Your task to perform on an android device: open app "Expedia: Hotels, Flights & Car" (install if not already installed) and enter user name: "crusader@outlook.com" and password: "Toryize" Image 0: 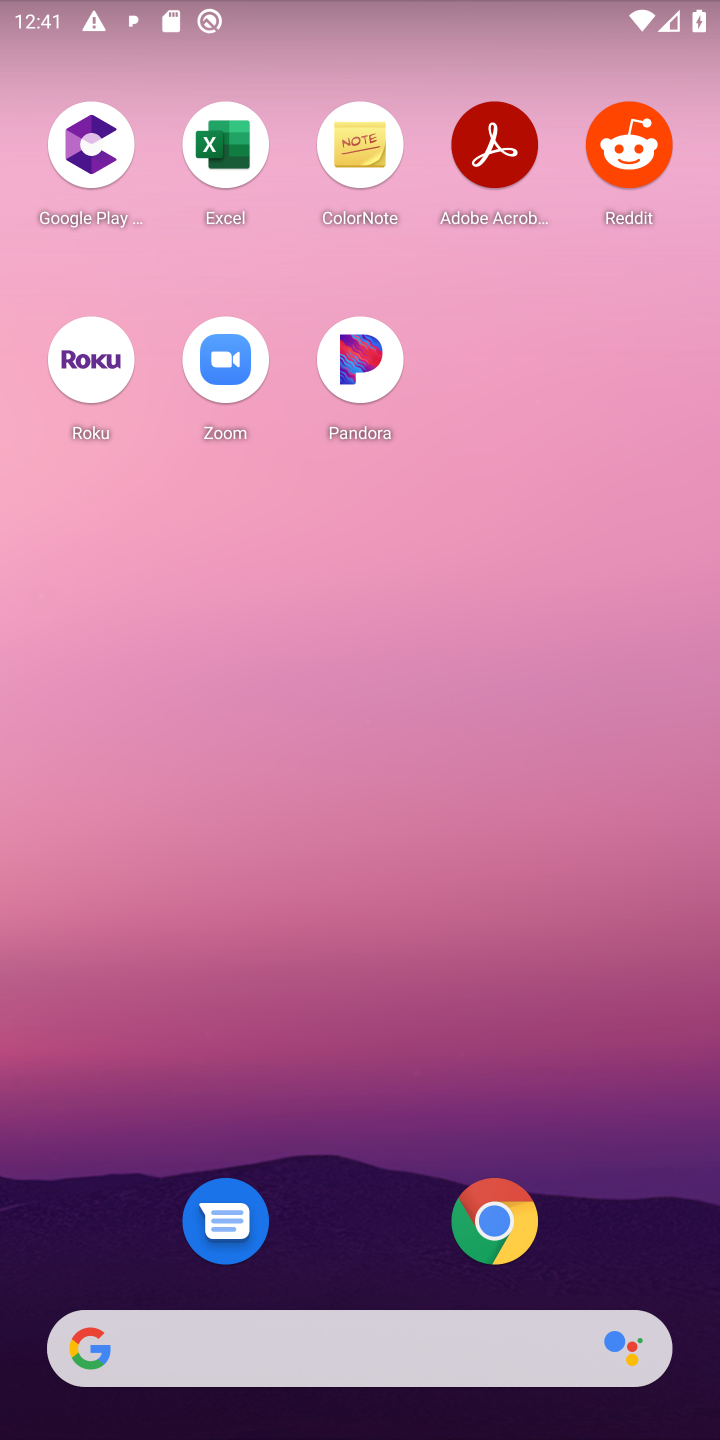
Step 0: drag from (361, 731) to (431, 132)
Your task to perform on an android device: open app "Expedia: Hotels, Flights & Car" (install if not already installed) and enter user name: "crusader@outlook.com" and password: "Toryize" Image 1: 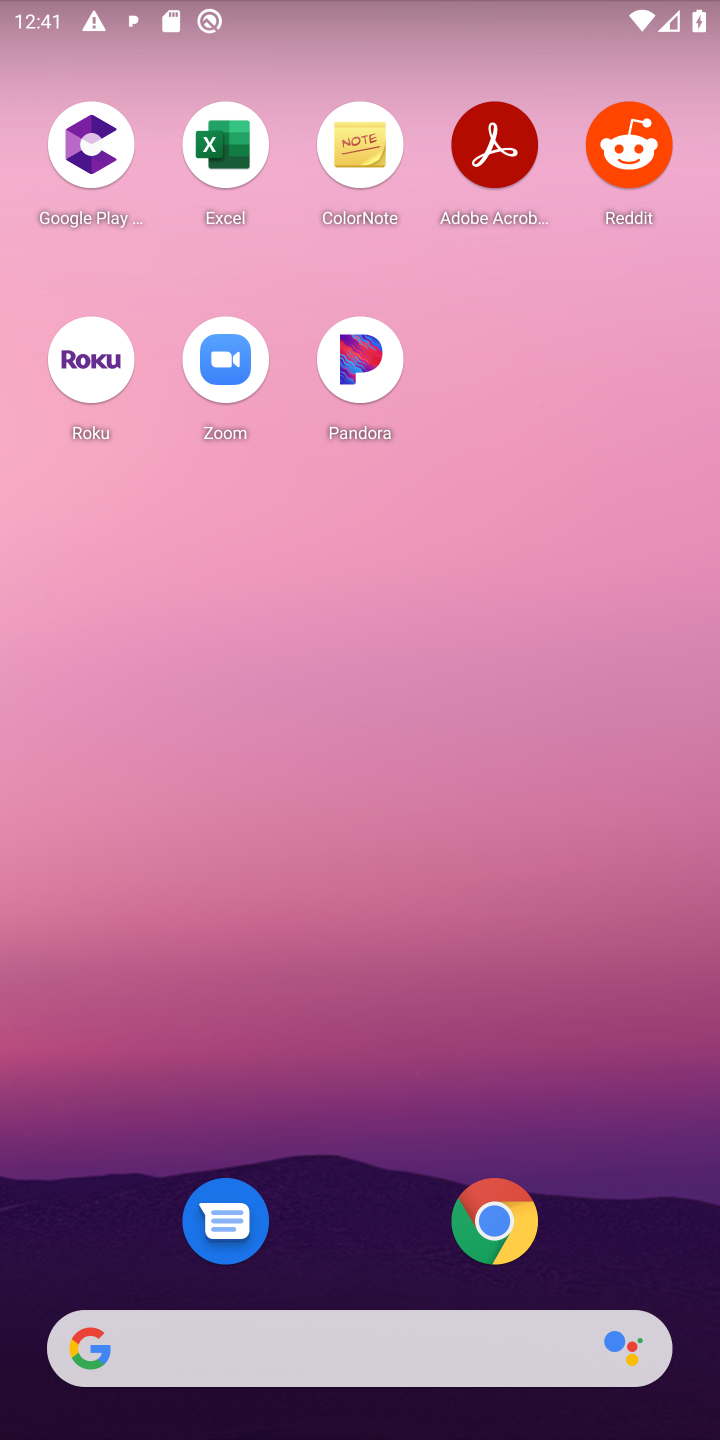
Step 1: drag from (304, 1124) to (405, 101)
Your task to perform on an android device: open app "Expedia: Hotels, Flights & Car" (install if not already installed) and enter user name: "crusader@outlook.com" and password: "Toryize" Image 2: 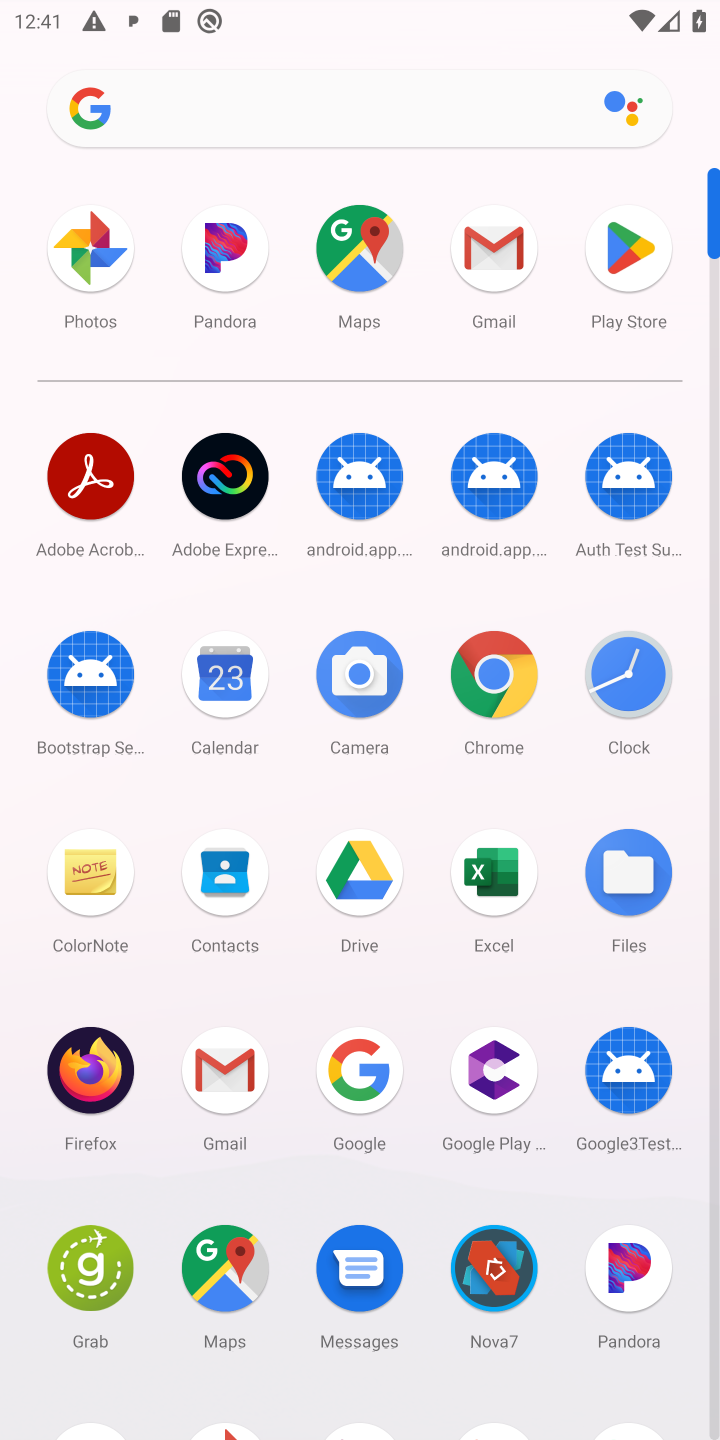
Step 2: click (614, 258)
Your task to perform on an android device: open app "Expedia: Hotels, Flights & Car" (install if not already installed) and enter user name: "crusader@outlook.com" and password: "Toryize" Image 3: 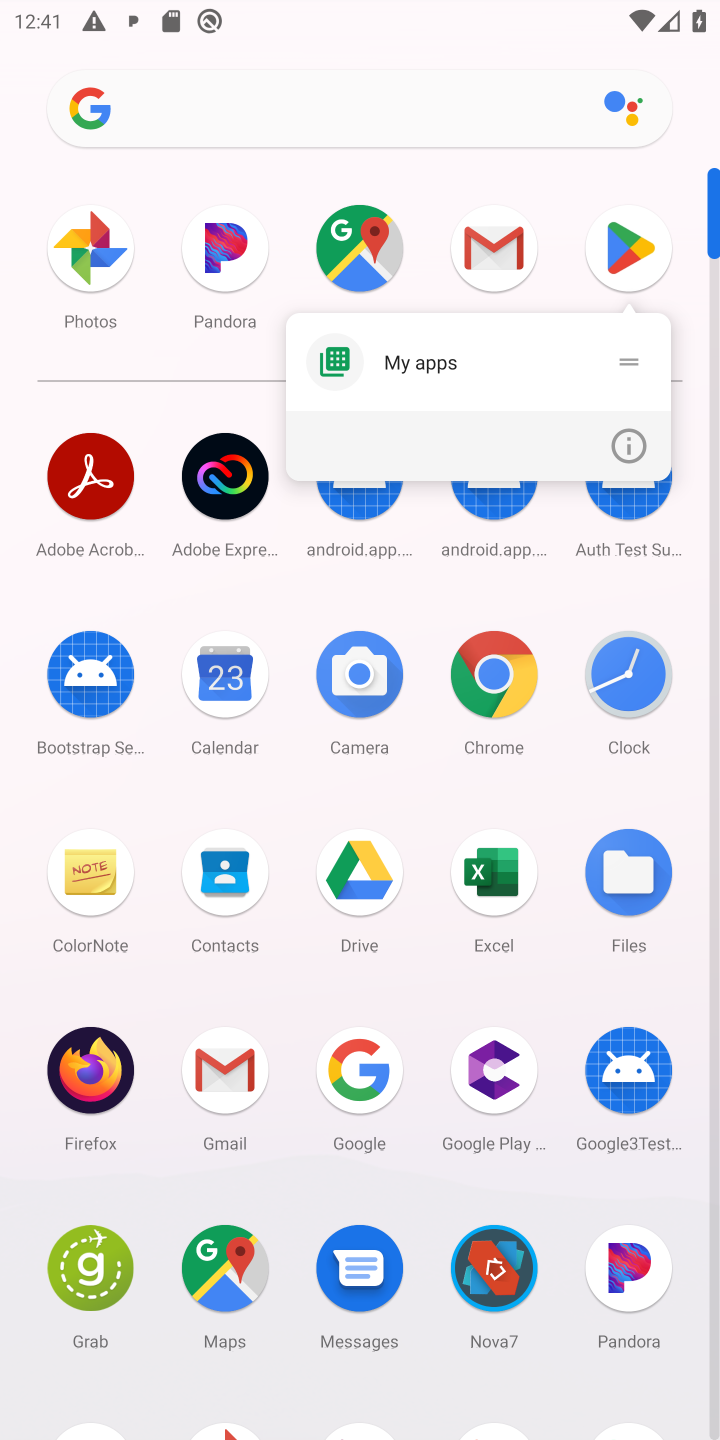
Step 3: click (644, 242)
Your task to perform on an android device: open app "Expedia: Hotels, Flights & Car" (install if not already installed) and enter user name: "crusader@outlook.com" and password: "Toryize" Image 4: 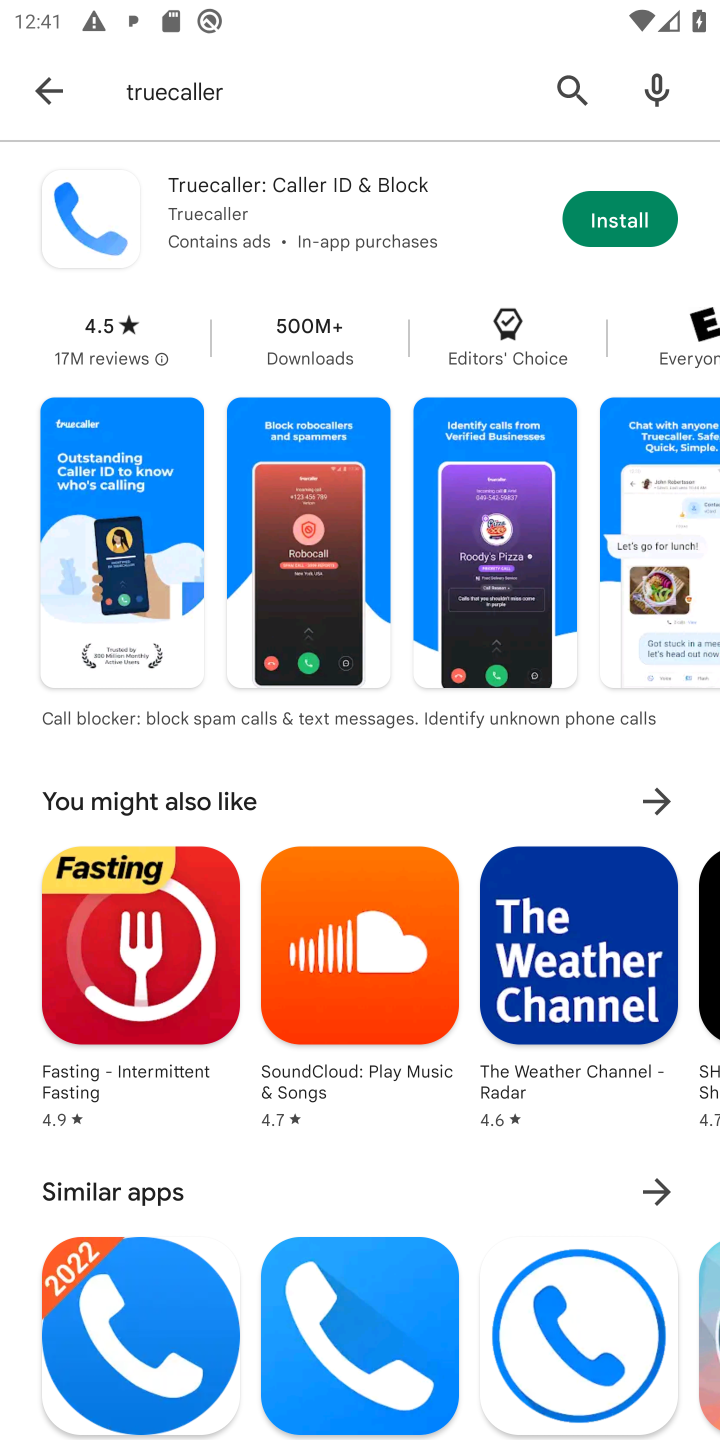
Step 4: click (578, 85)
Your task to perform on an android device: open app "Expedia: Hotels, Flights & Car" (install if not already installed) and enter user name: "crusader@outlook.com" and password: "Toryize" Image 5: 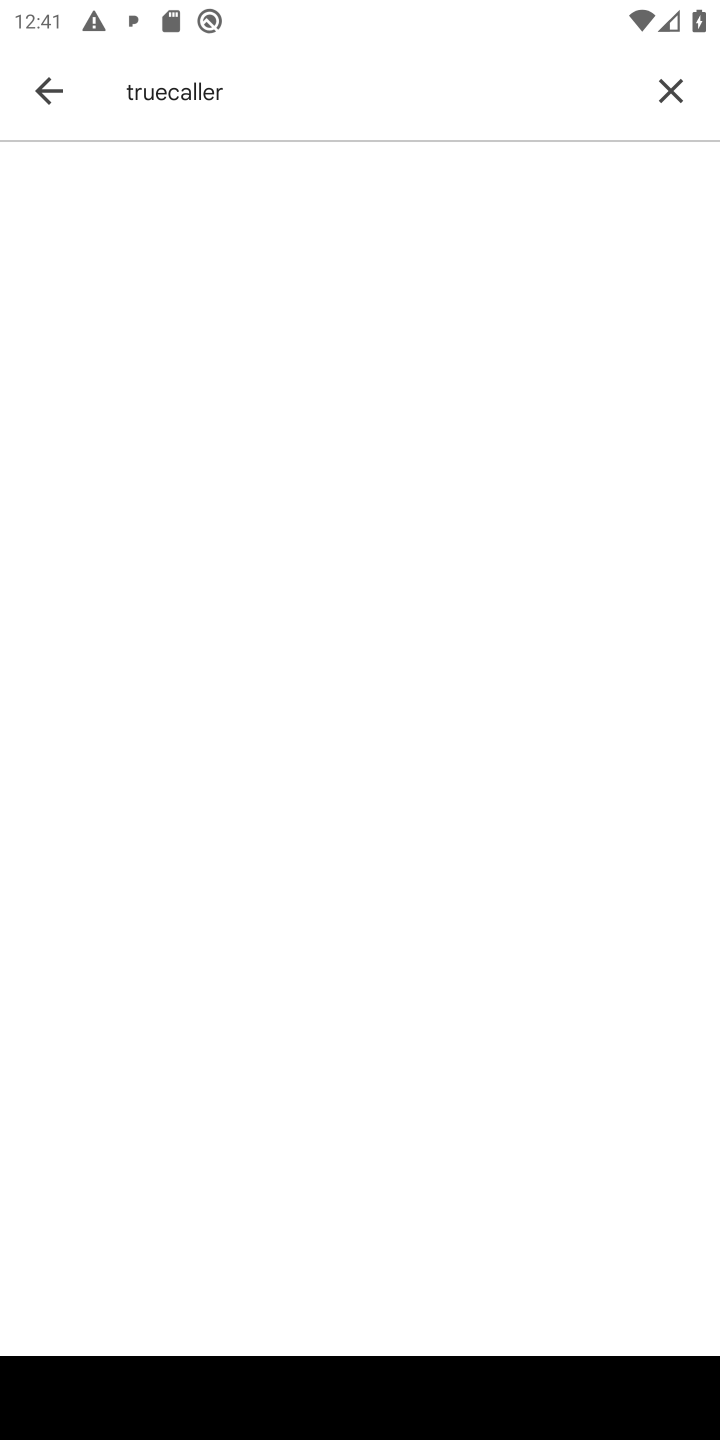
Step 5: click (659, 82)
Your task to perform on an android device: open app "Expedia: Hotels, Flights & Car" (install if not already installed) and enter user name: "crusader@outlook.com" and password: "Toryize" Image 6: 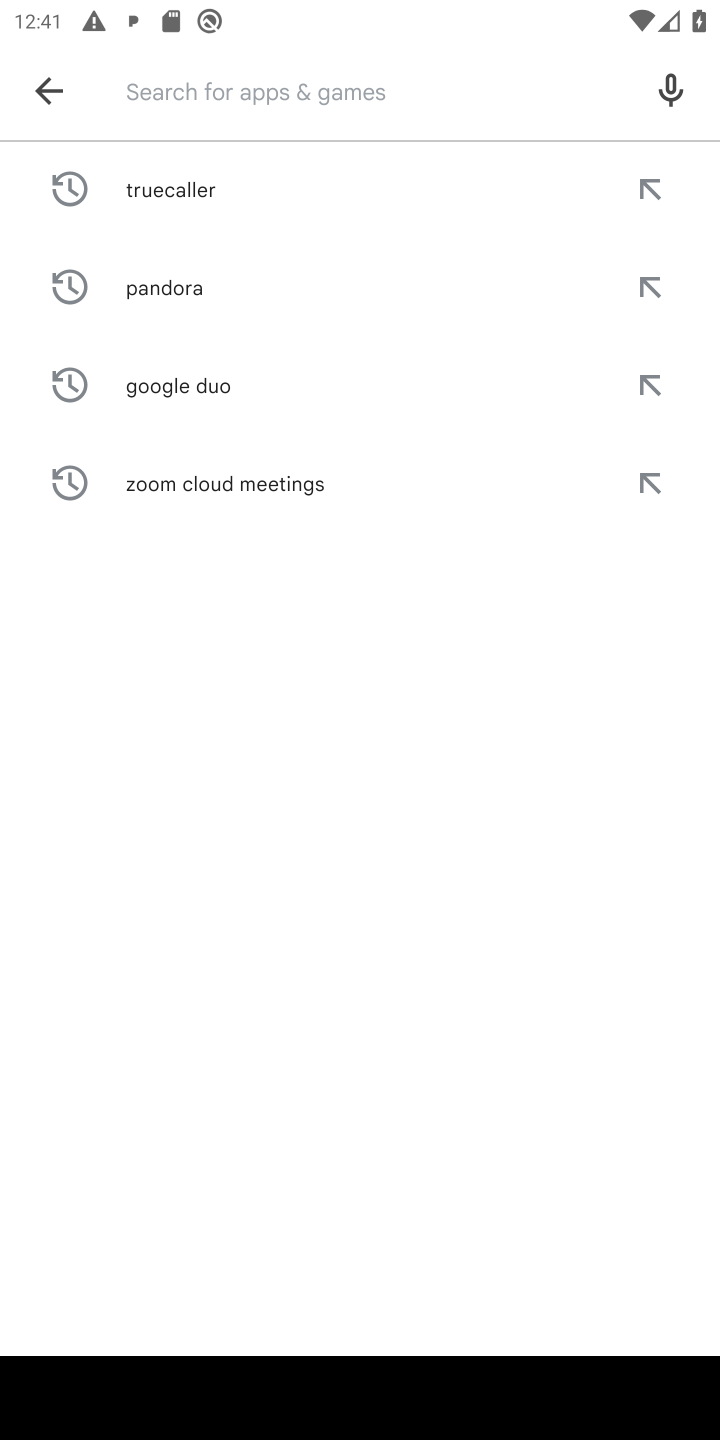
Step 6: click (210, 65)
Your task to perform on an android device: open app "Expedia: Hotels, Flights & Car" (install if not already installed) and enter user name: "crusader@outlook.com" and password: "Toryize" Image 7: 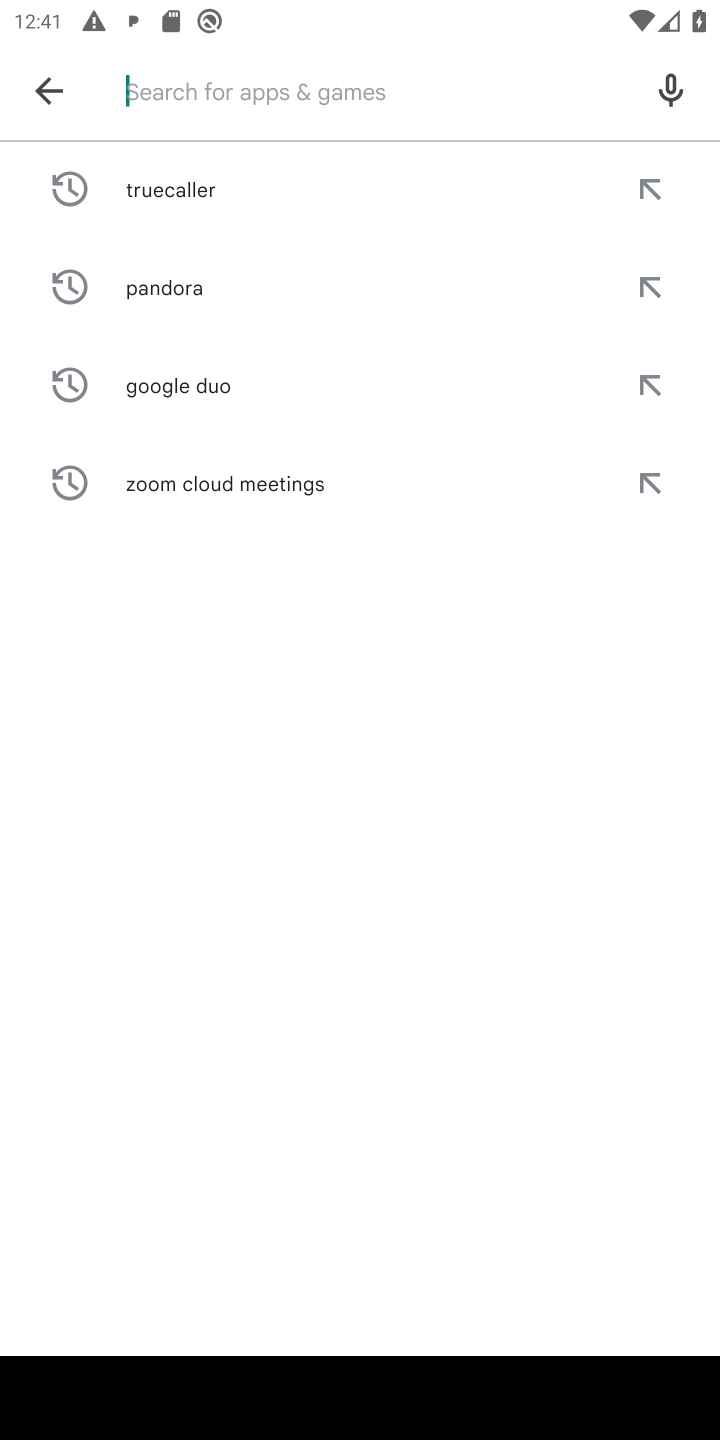
Step 7: type "Expedia"
Your task to perform on an android device: open app "Expedia: Hotels, Flights & Car" (install if not already installed) and enter user name: "crusader@outlook.com" and password: "Toryize" Image 8: 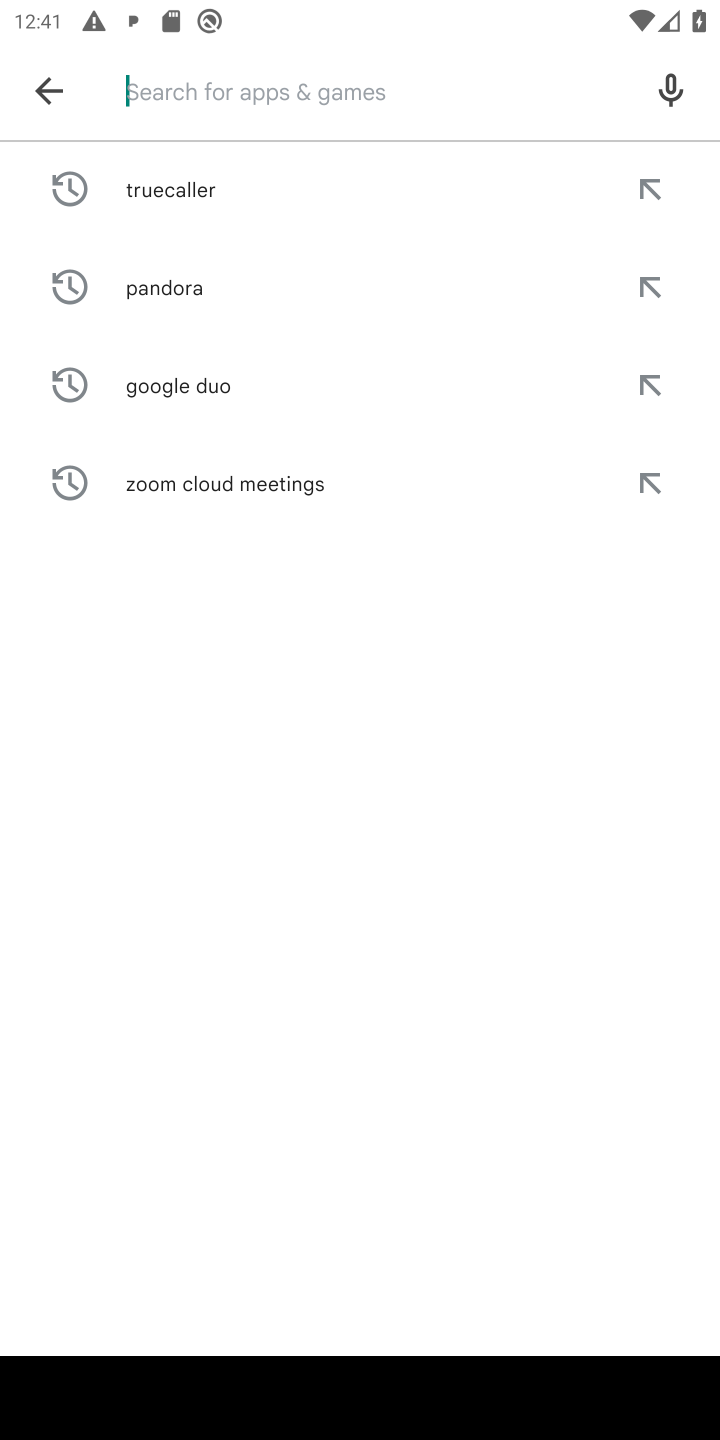
Step 8: click (326, 931)
Your task to perform on an android device: open app "Expedia: Hotels, Flights & Car" (install if not already installed) and enter user name: "crusader@outlook.com" and password: "Toryize" Image 9: 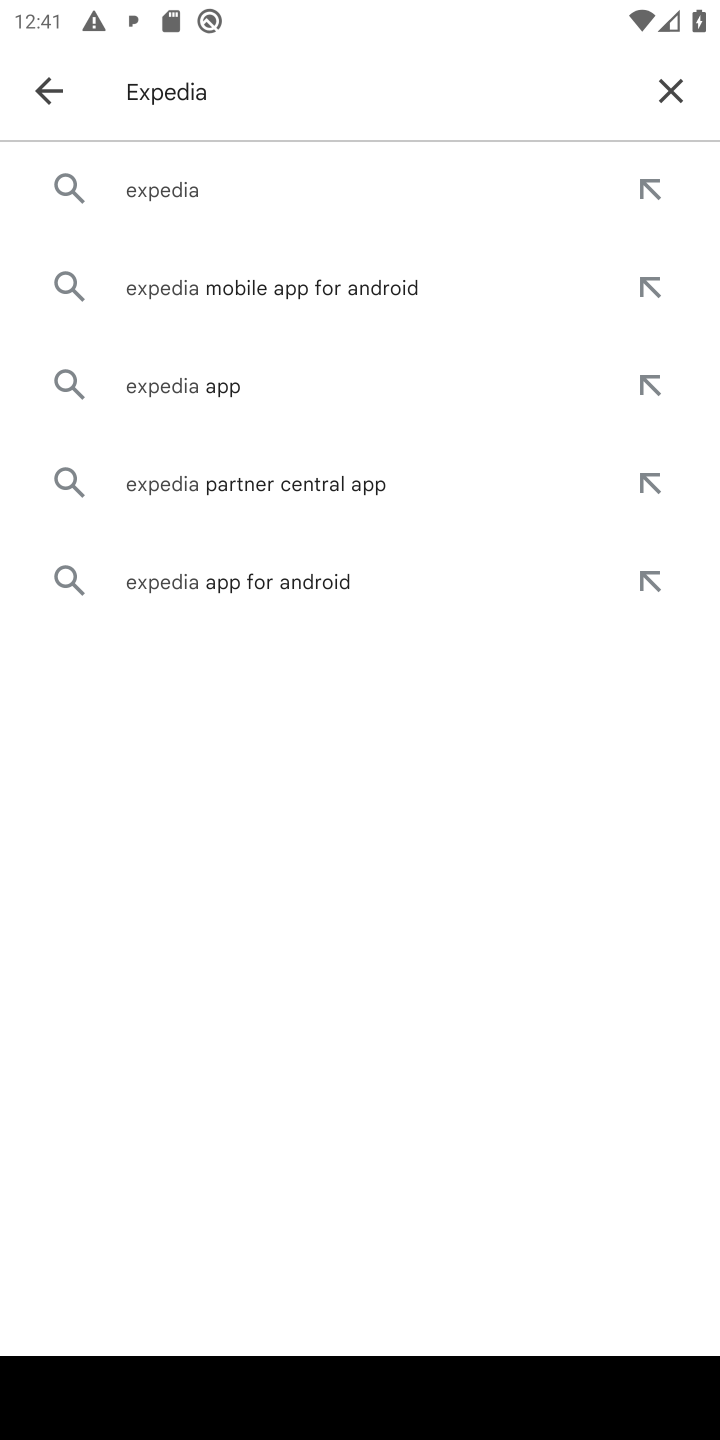
Step 9: click (155, 182)
Your task to perform on an android device: open app "Expedia: Hotels, Flights & Car" (install if not already installed) and enter user name: "crusader@outlook.com" and password: "Toryize" Image 10: 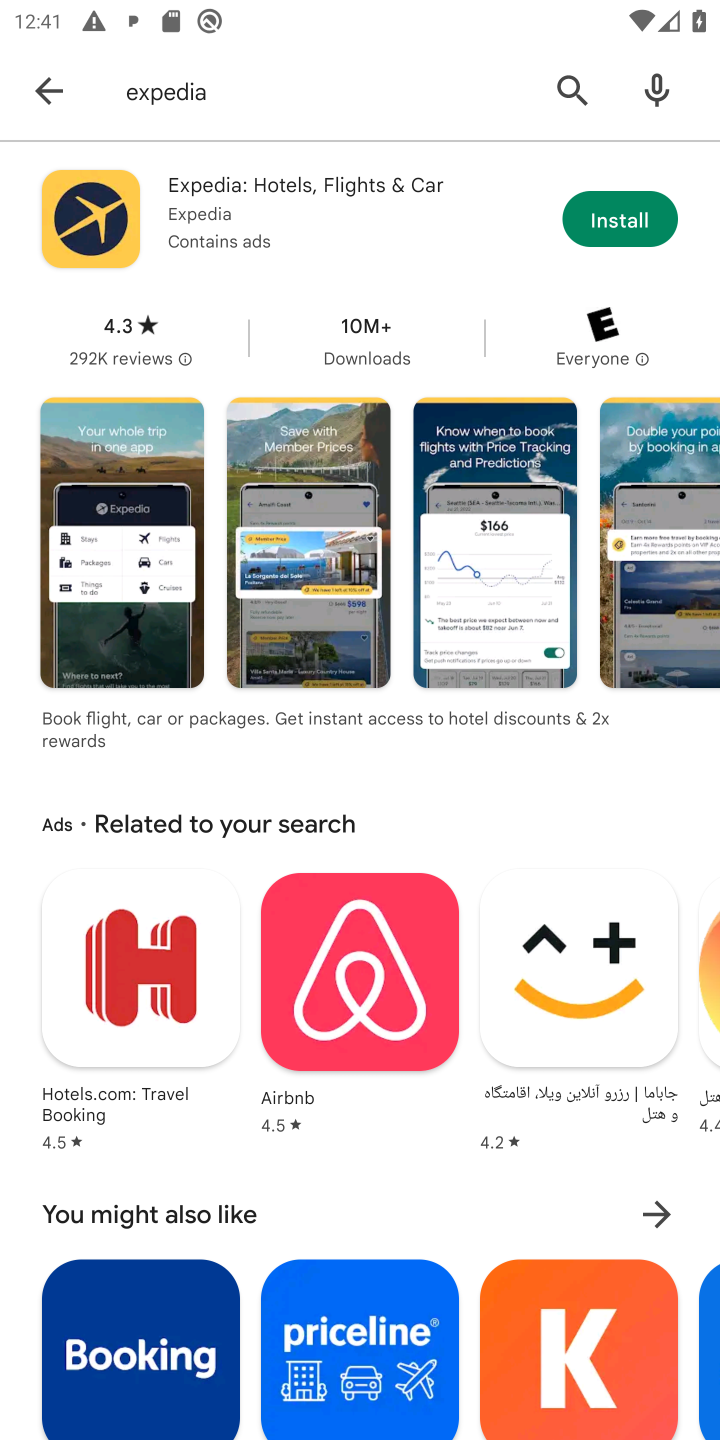
Step 10: click (624, 214)
Your task to perform on an android device: open app "Expedia: Hotels, Flights & Car" (install if not already installed) and enter user name: "crusader@outlook.com" and password: "Toryize" Image 11: 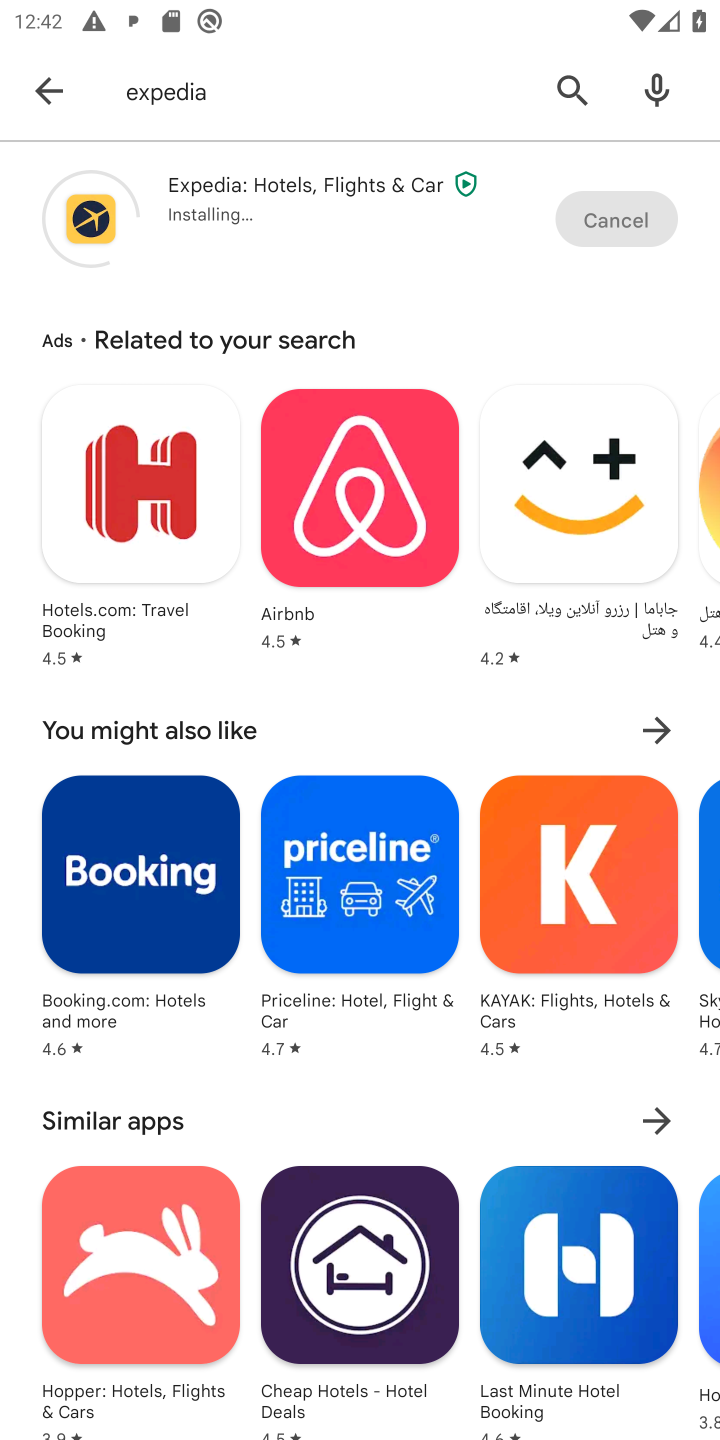
Step 11: click (294, 175)
Your task to perform on an android device: open app "Expedia: Hotels, Flights & Car" (install if not already installed) and enter user name: "crusader@outlook.com" and password: "Toryize" Image 12: 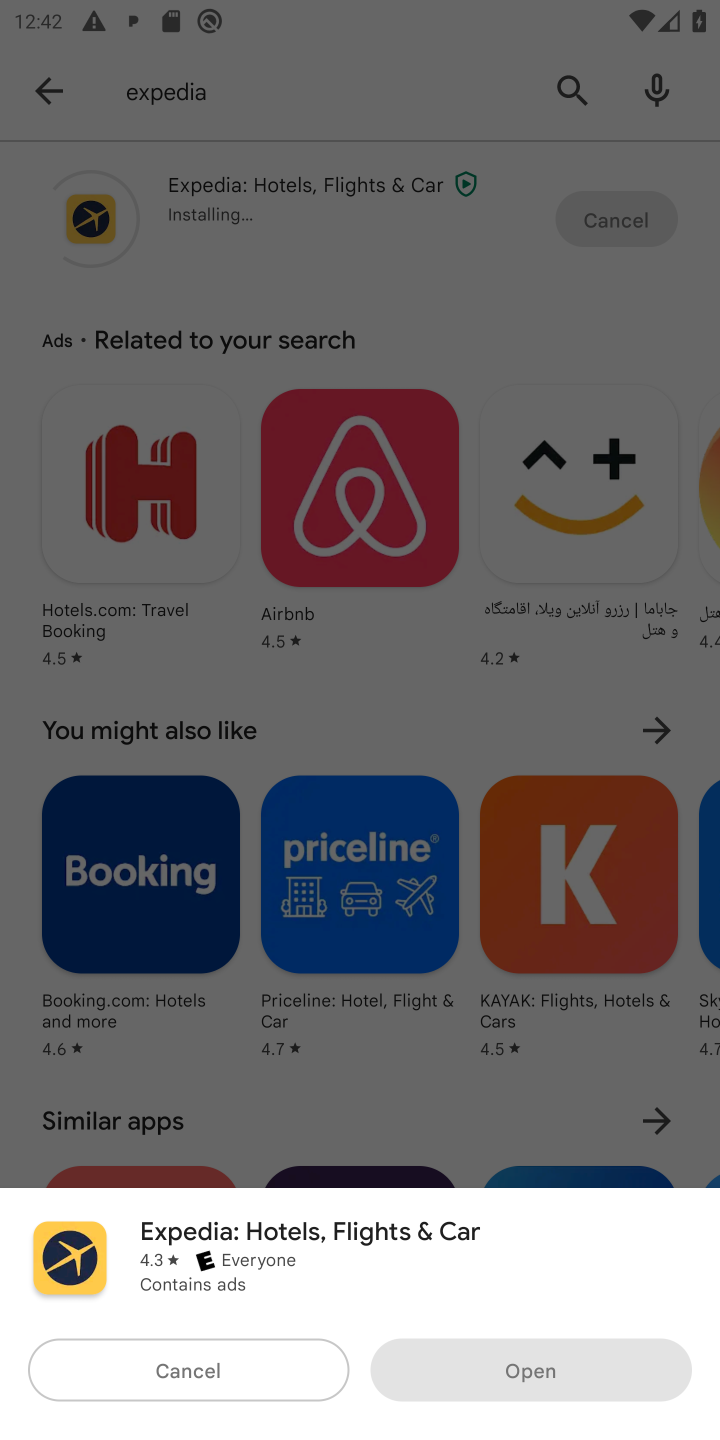
Step 12: press back button
Your task to perform on an android device: open app "Expedia: Hotels, Flights & Car" (install if not already installed) and enter user name: "crusader@outlook.com" and password: "Toryize" Image 13: 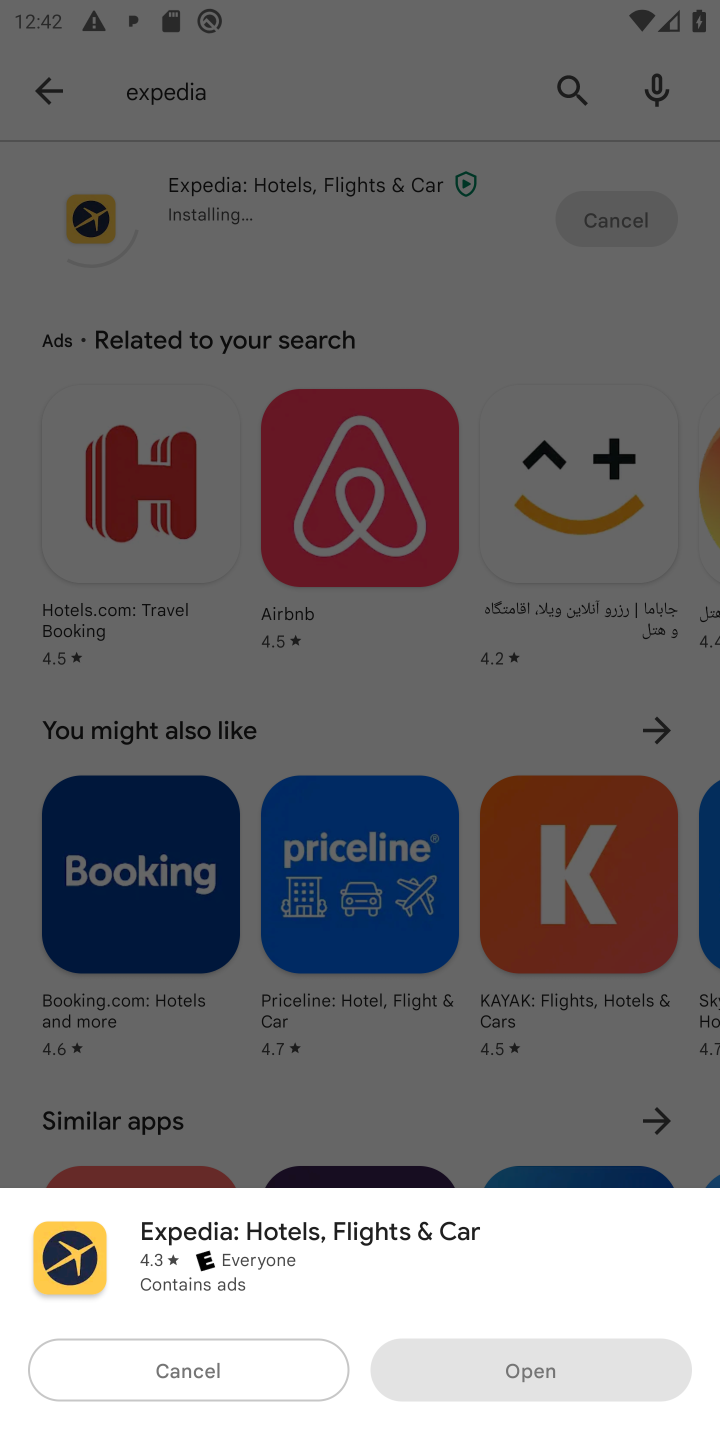
Step 13: click (343, 717)
Your task to perform on an android device: open app "Expedia: Hotels, Flights & Car" (install if not already installed) and enter user name: "crusader@outlook.com" and password: "Toryize" Image 14: 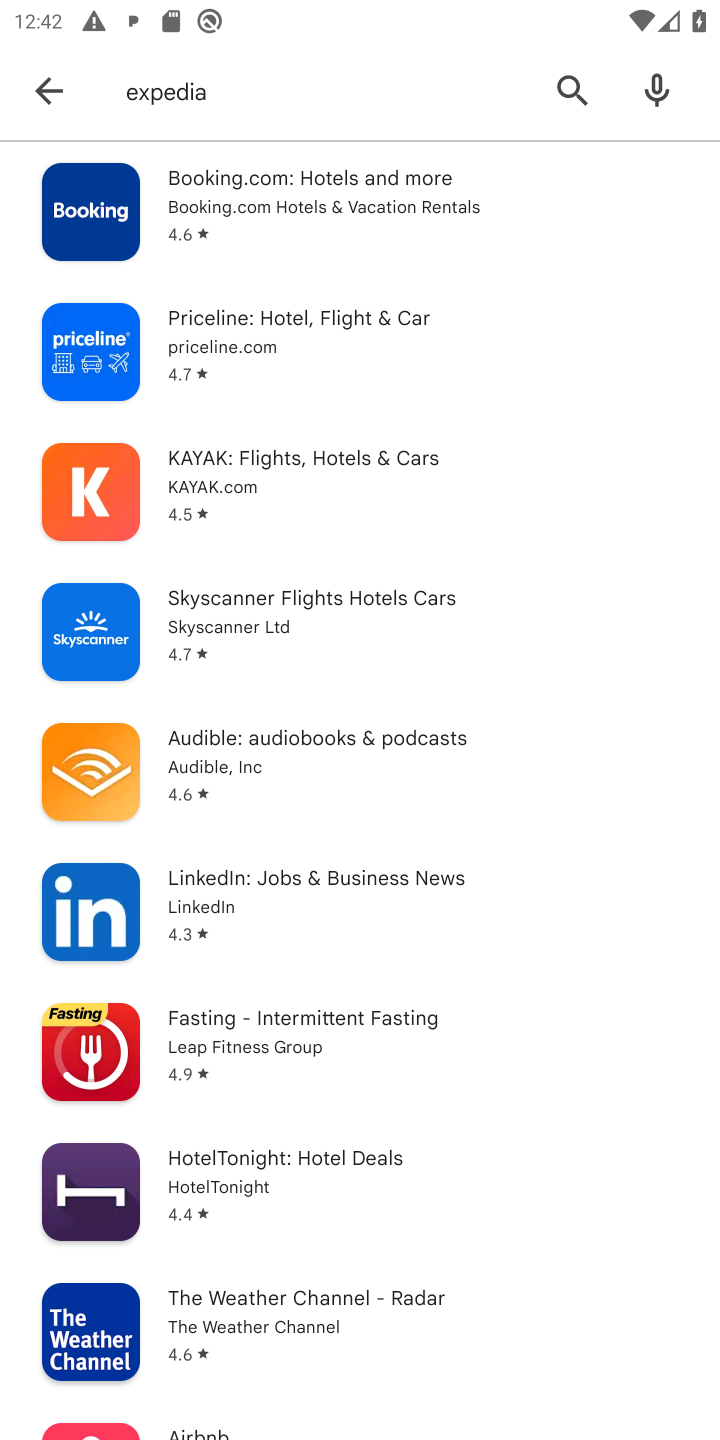
Step 14: click (541, 91)
Your task to perform on an android device: open app "Expedia: Hotels, Flights & Car" (install if not already installed) and enter user name: "crusader@outlook.com" and password: "Toryize" Image 15: 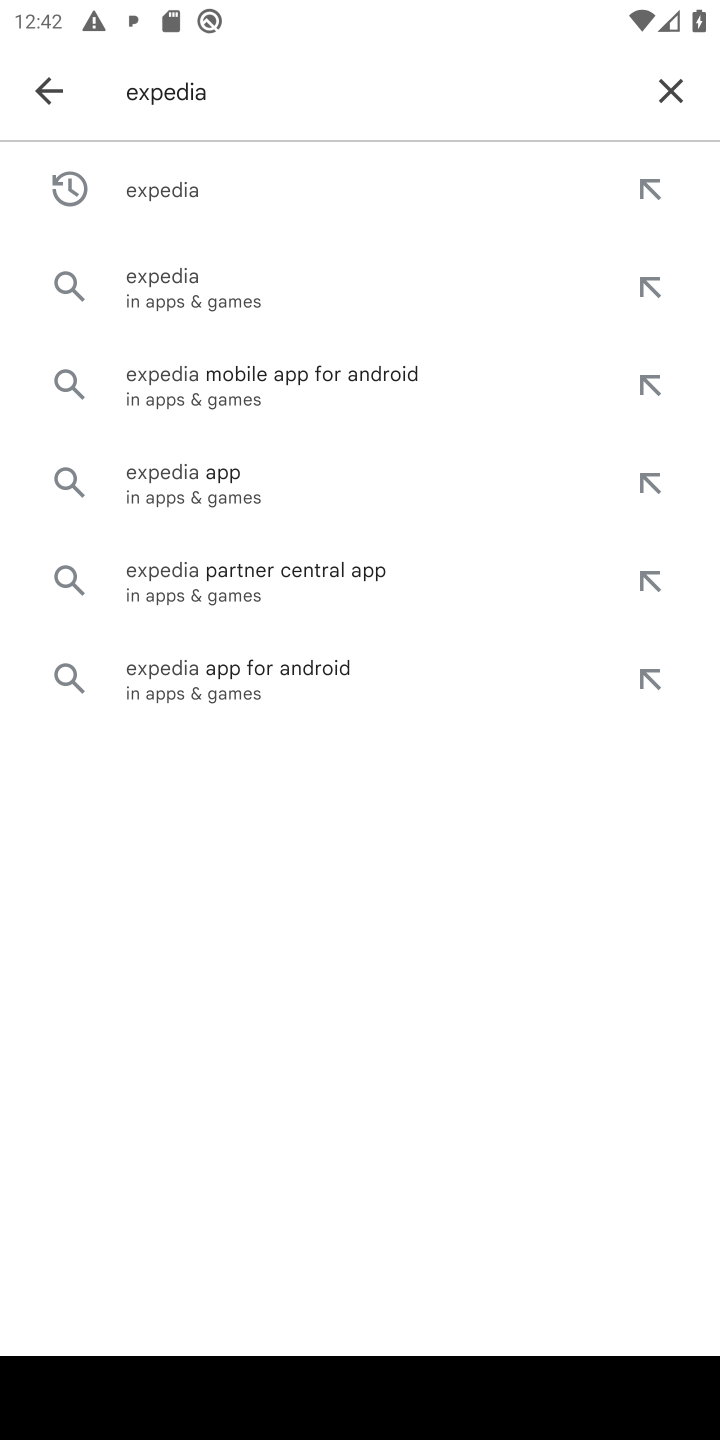
Step 15: click (142, 185)
Your task to perform on an android device: open app "Expedia: Hotels, Flights & Car" (install if not already installed) and enter user name: "crusader@outlook.com" and password: "Toryize" Image 16: 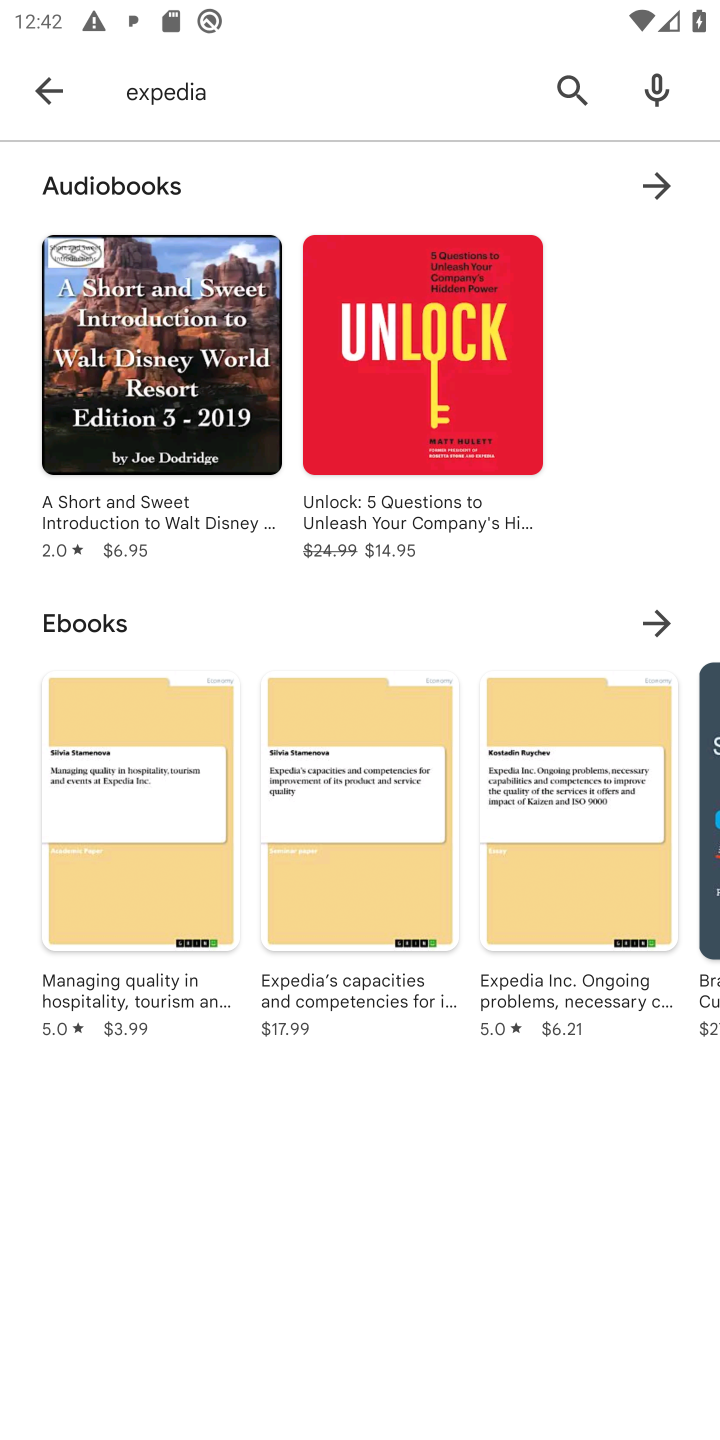
Step 16: click (586, 79)
Your task to perform on an android device: open app "Expedia: Hotels, Flights & Car" (install if not already installed) and enter user name: "crusader@outlook.com" and password: "Toryize" Image 17: 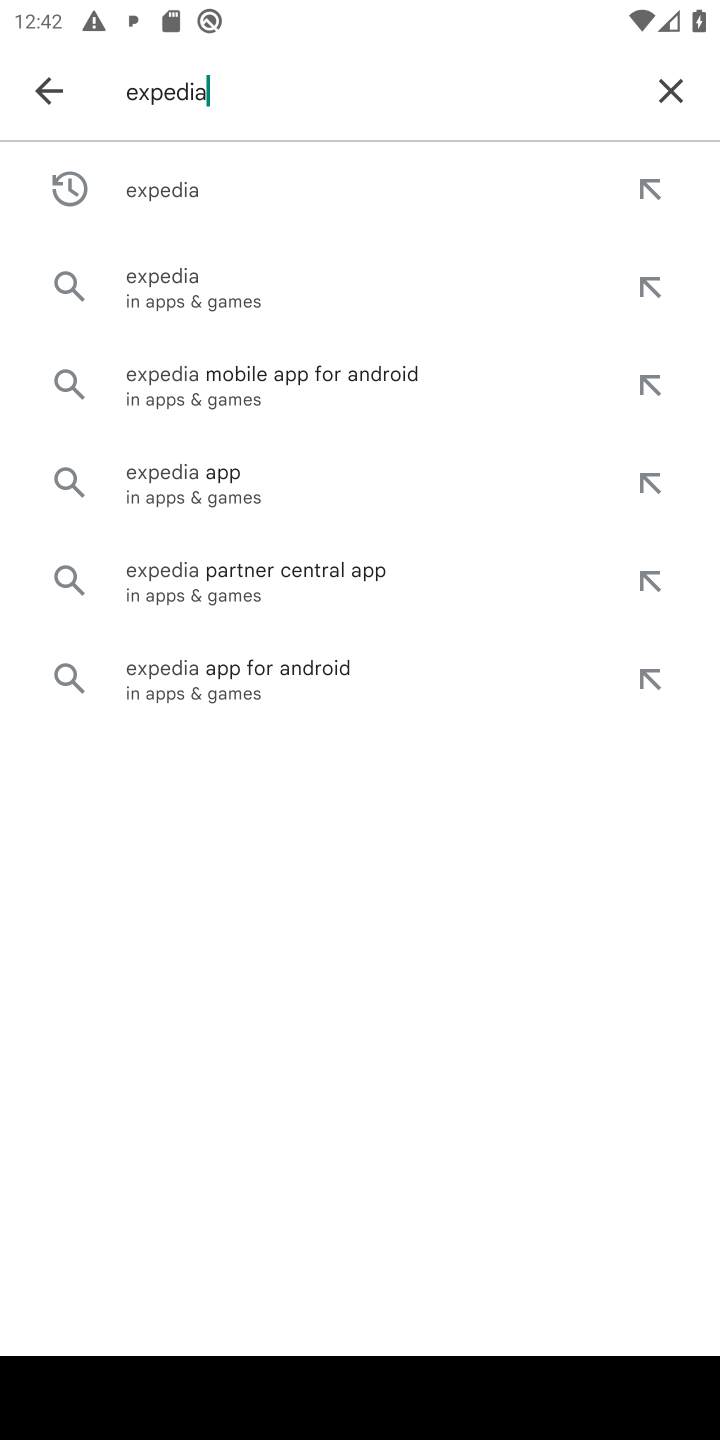
Step 17: click (668, 69)
Your task to perform on an android device: open app "Expedia: Hotels, Flights & Car" (install if not already installed) and enter user name: "crusader@outlook.com" and password: "Toryize" Image 18: 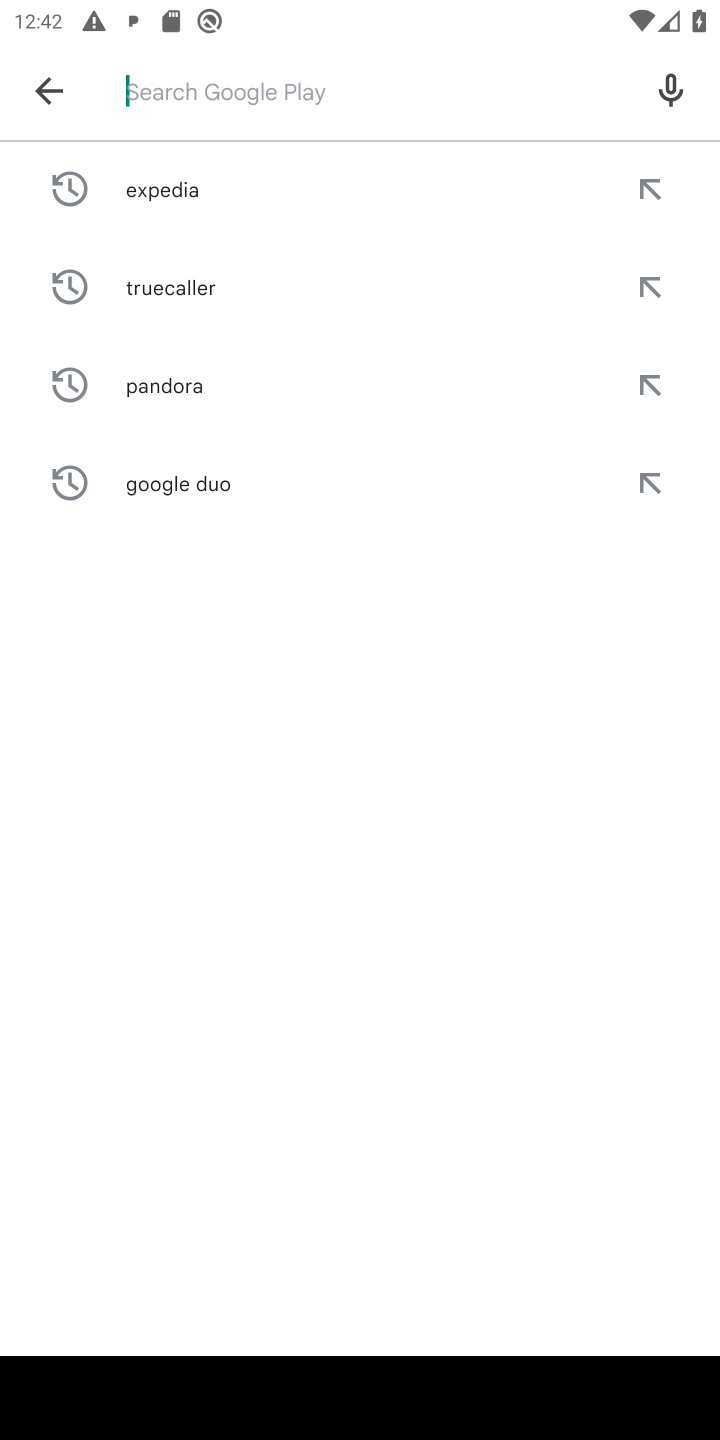
Step 18: click (308, 94)
Your task to perform on an android device: open app "Expedia: Hotels, Flights & Car" (install if not already installed) and enter user name: "crusader@outlook.com" and password: "Toryize" Image 19: 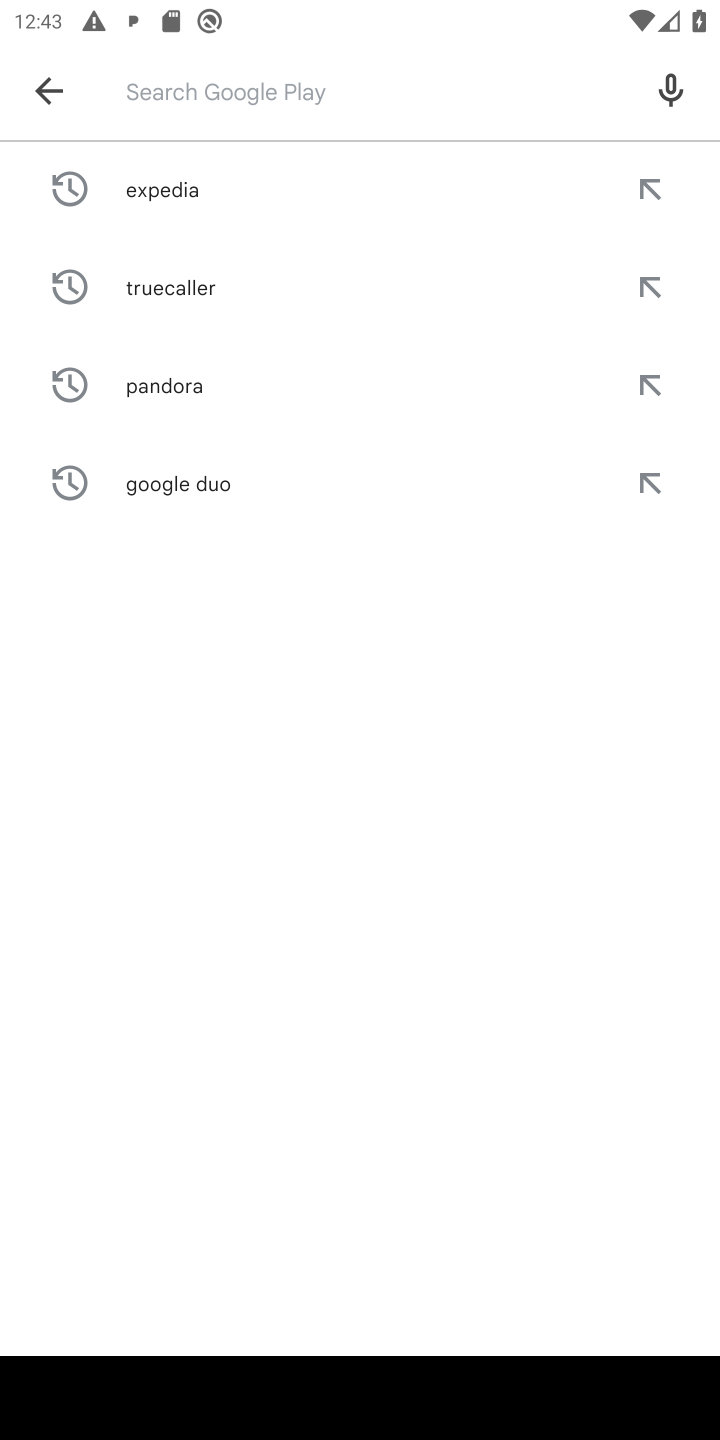
Step 19: type "Expedia"
Your task to perform on an android device: open app "Expedia: Hotels, Flights & Car" (install if not already installed) and enter user name: "crusader@outlook.com" and password: "Toryize" Image 20: 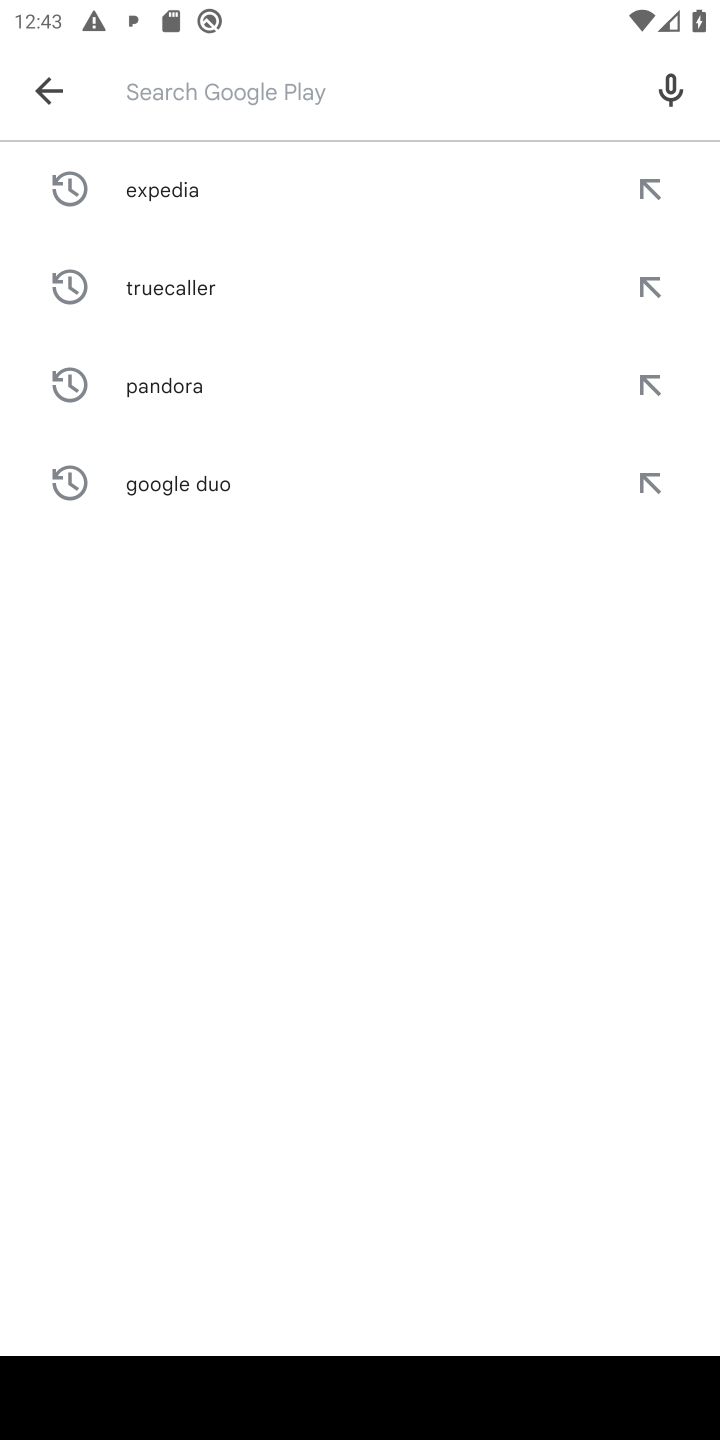
Step 20: click (390, 867)
Your task to perform on an android device: open app "Expedia: Hotels, Flights & Car" (install if not already installed) and enter user name: "crusader@outlook.com" and password: "Toryize" Image 21: 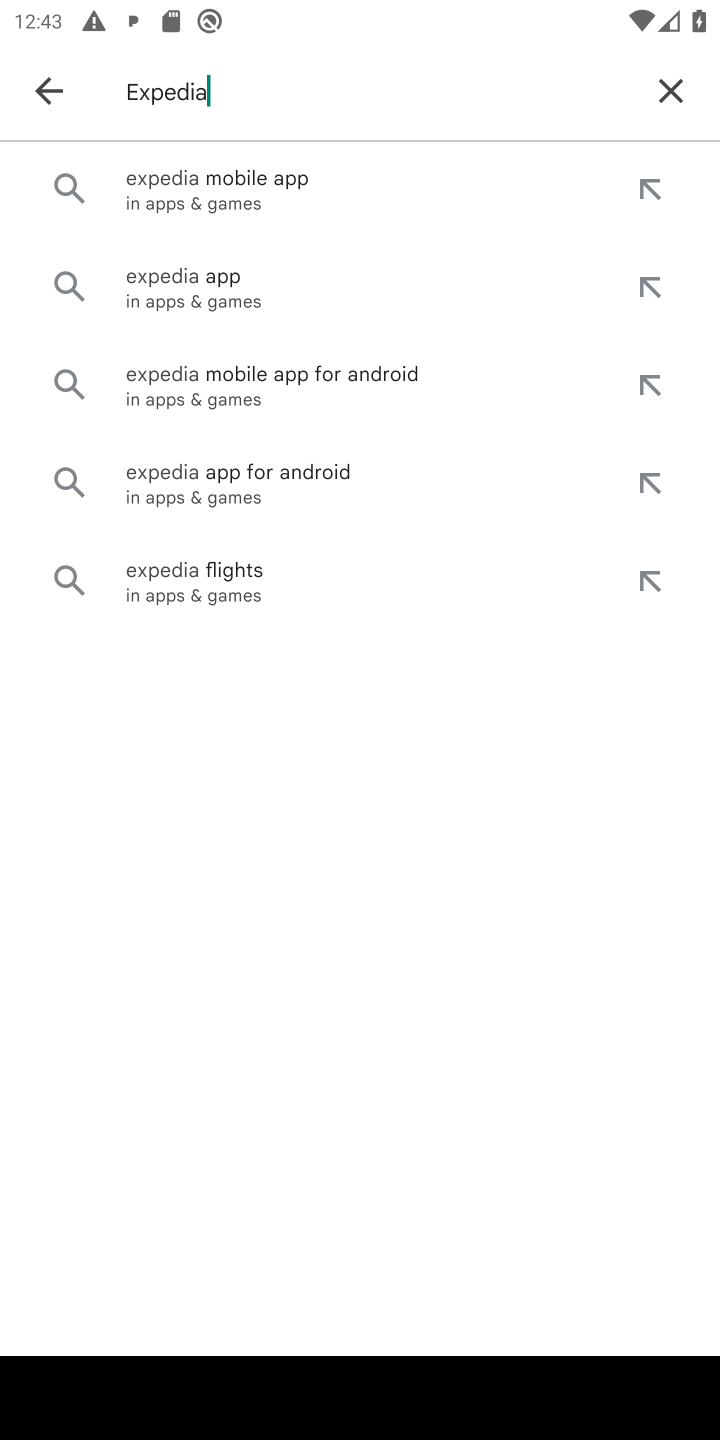
Step 21: click (280, 192)
Your task to perform on an android device: open app "Expedia: Hotels, Flights & Car" (install if not already installed) and enter user name: "crusader@outlook.com" and password: "Toryize" Image 22: 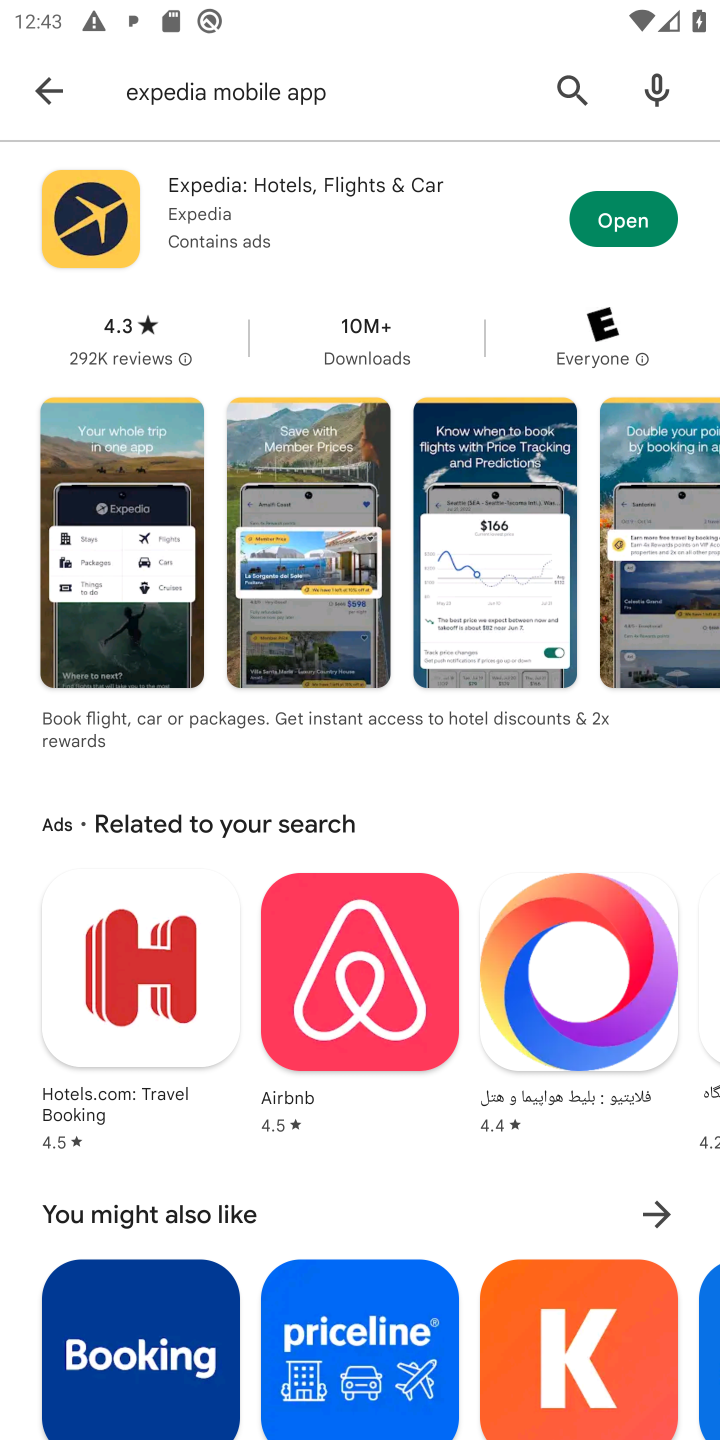
Step 22: click (609, 230)
Your task to perform on an android device: open app "Expedia: Hotels, Flights & Car" (install if not already installed) and enter user name: "crusader@outlook.com" and password: "Toryize" Image 23: 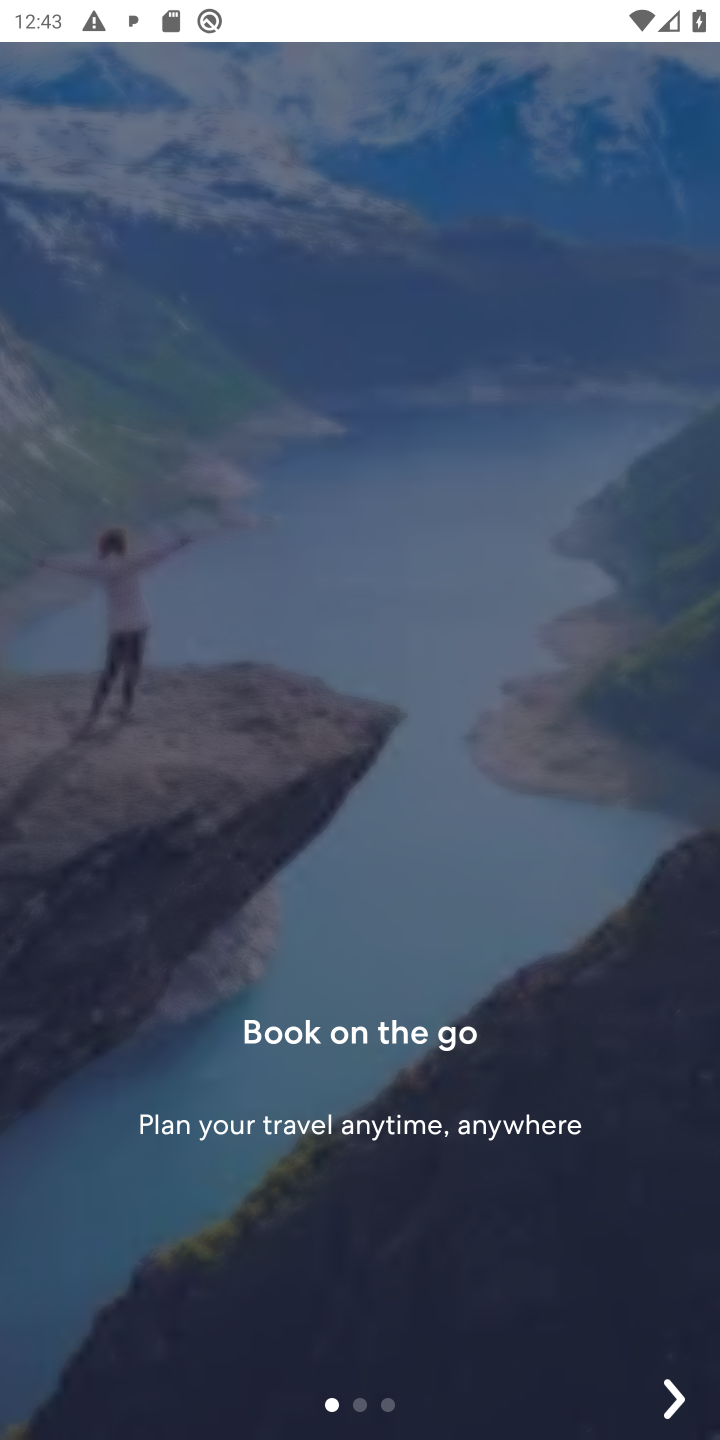
Step 23: click (672, 1401)
Your task to perform on an android device: open app "Expedia: Hotels, Flights & Car" (install if not already installed) and enter user name: "crusader@outlook.com" and password: "Toryize" Image 24: 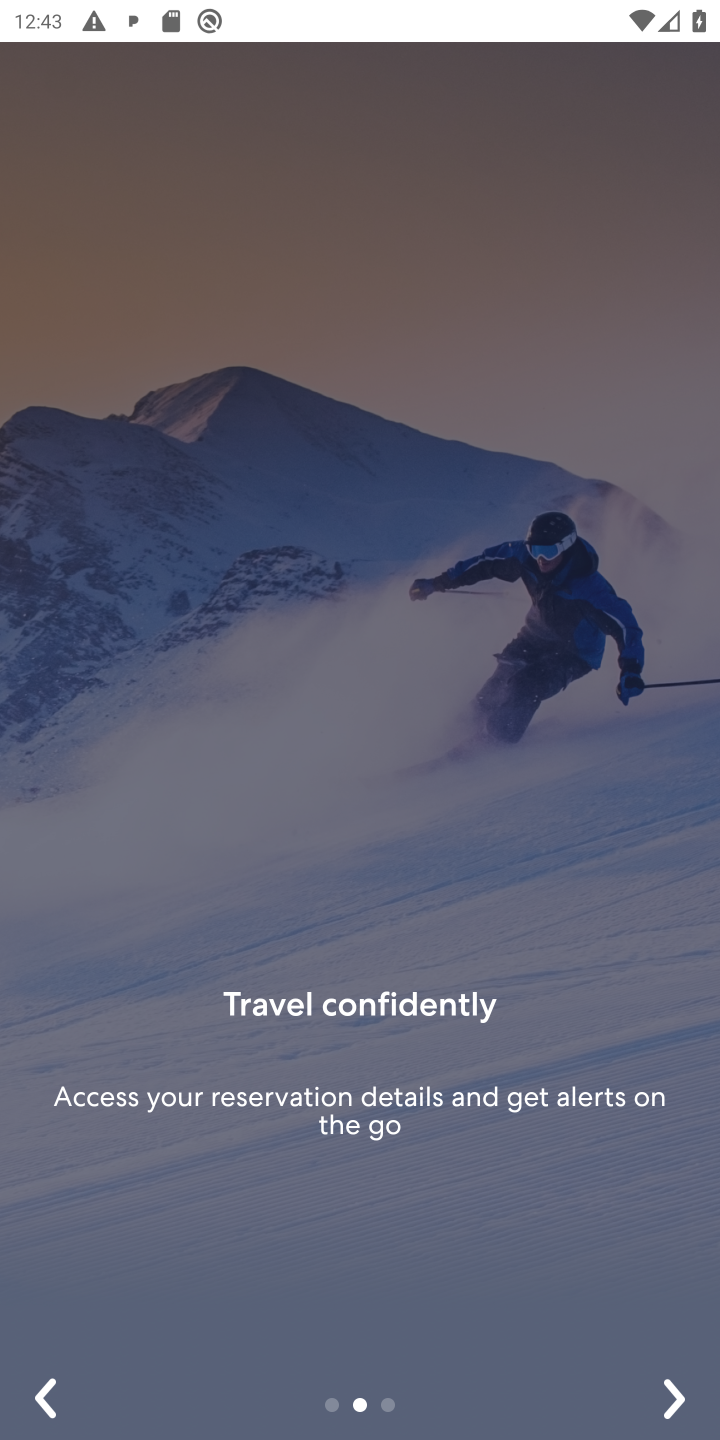
Step 24: click (660, 1389)
Your task to perform on an android device: open app "Expedia: Hotels, Flights & Car" (install if not already installed) and enter user name: "crusader@outlook.com" and password: "Toryize" Image 25: 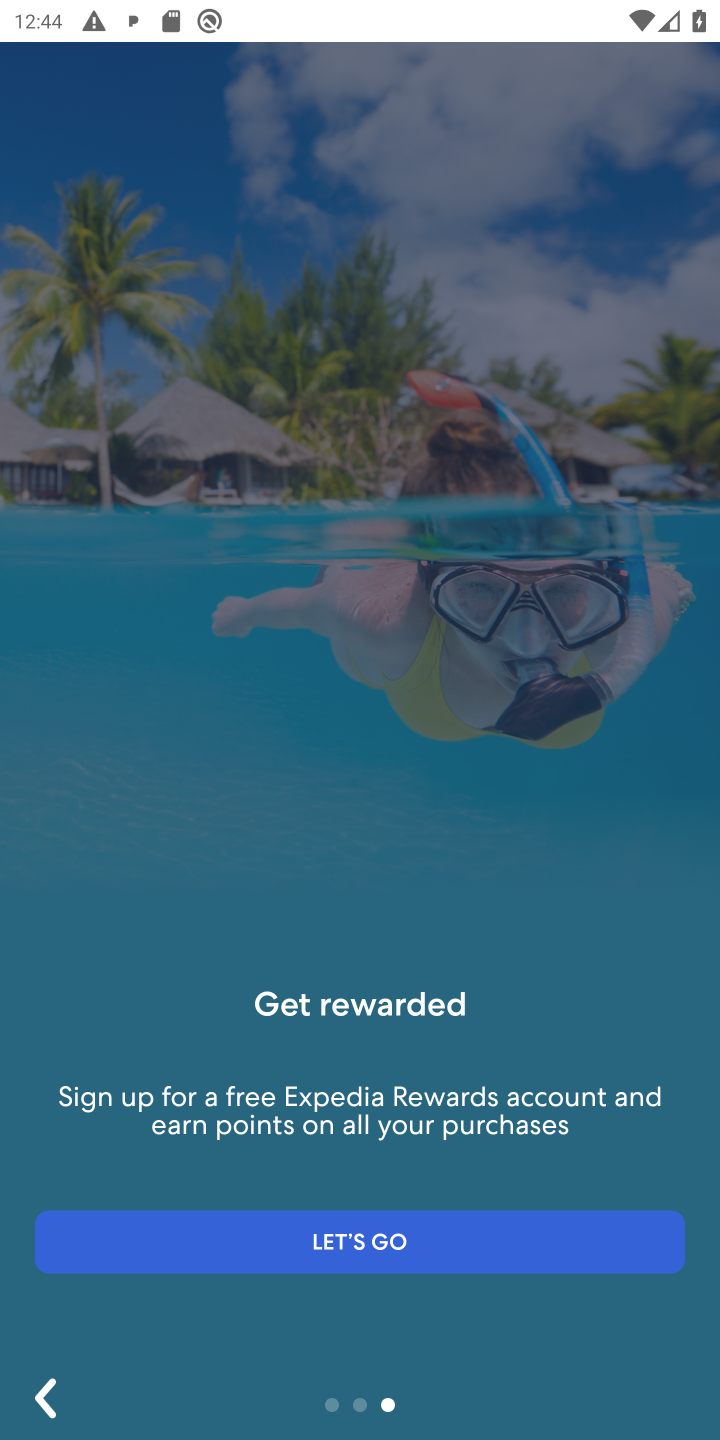
Step 25: click (400, 1245)
Your task to perform on an android device: open app "Expedia: Hotels, Flights & Car" (install if not already installed) and enter user name: "crusader@outlook.com" and password: "Toryize" Image 26: 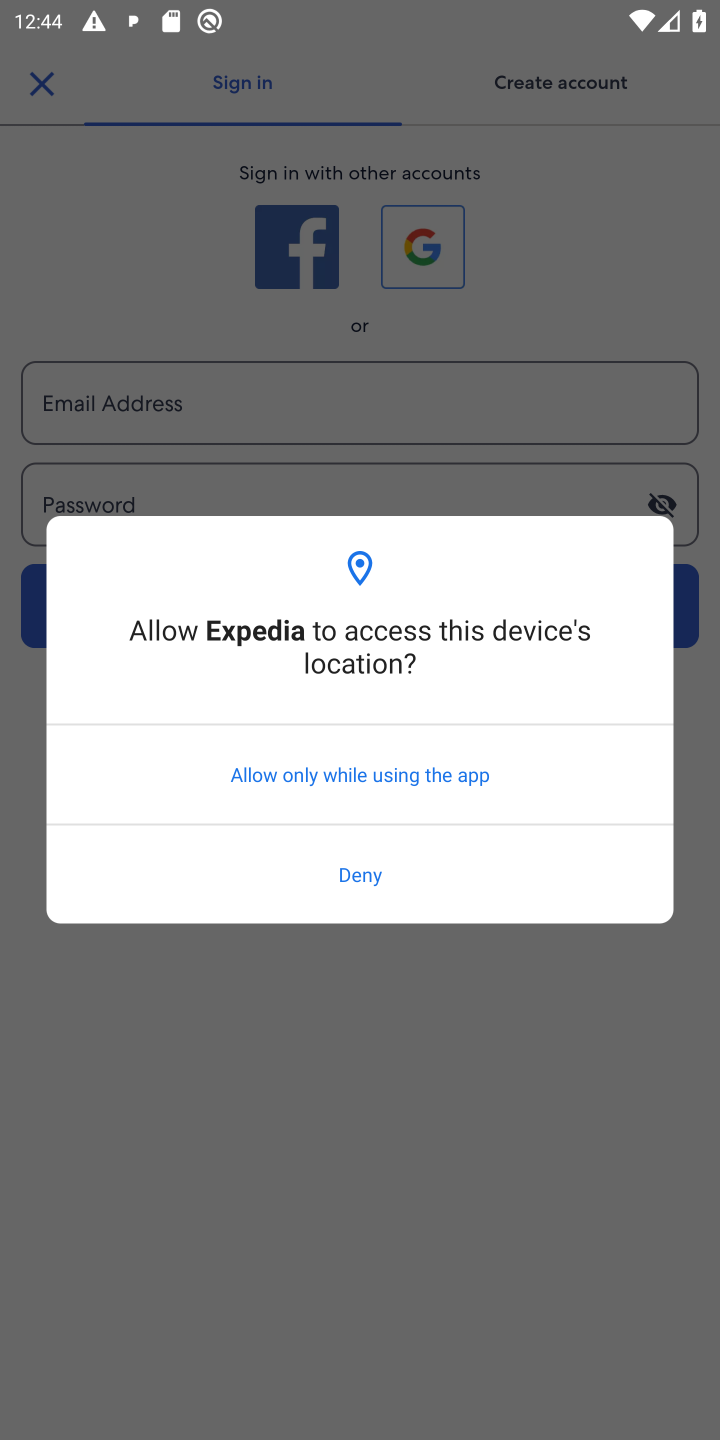
Step 26: click (381, 786)
Your task to perform on an android device: open app "Expedia: Hotels, Flights & Car" (install if not already installed) and enter user name: "crusader@outlook.com" and password: "Toryize" Image 27: 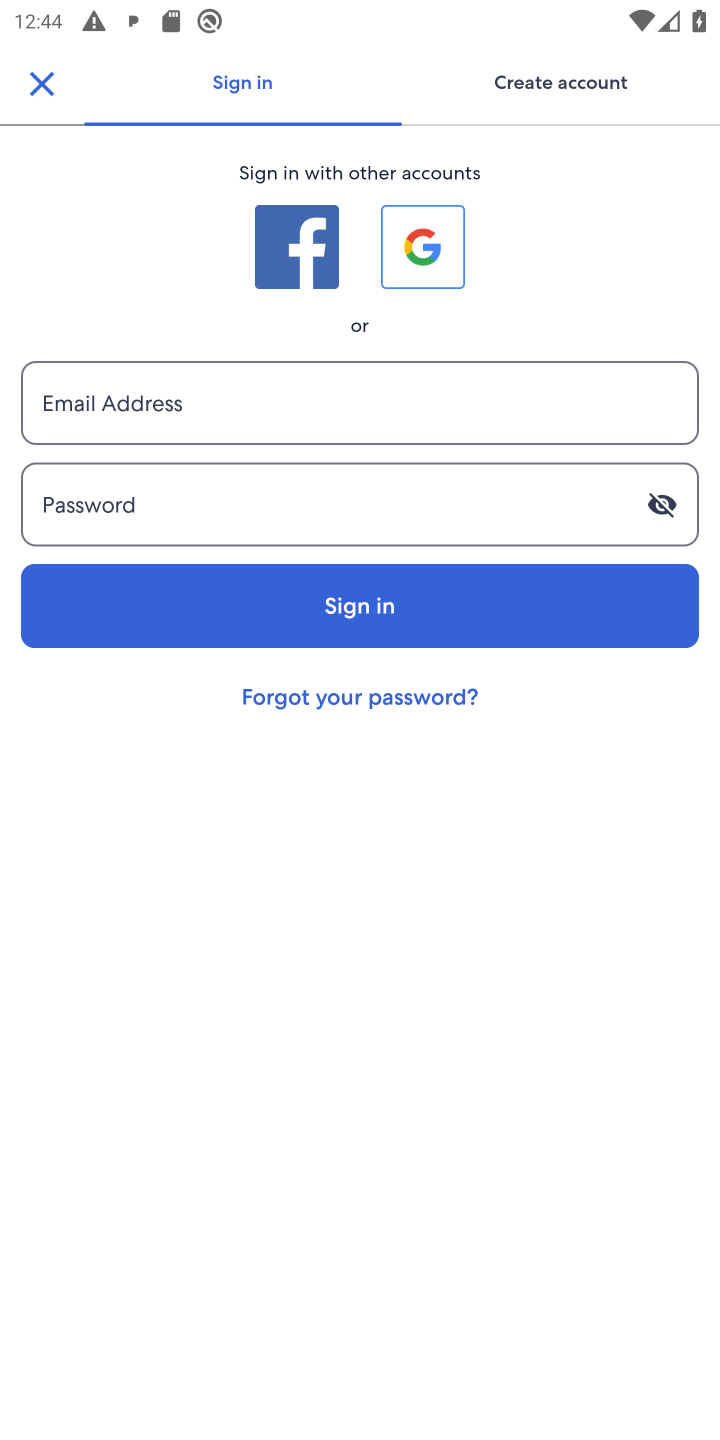
Step 27: click (106, 403)
Your task to perform on an android device: open app "Expedia: Hotels, Flights & Car" (install if not already installed) and enter user name: "crusader@outlook.com" and password: "Toryize" Image 28: 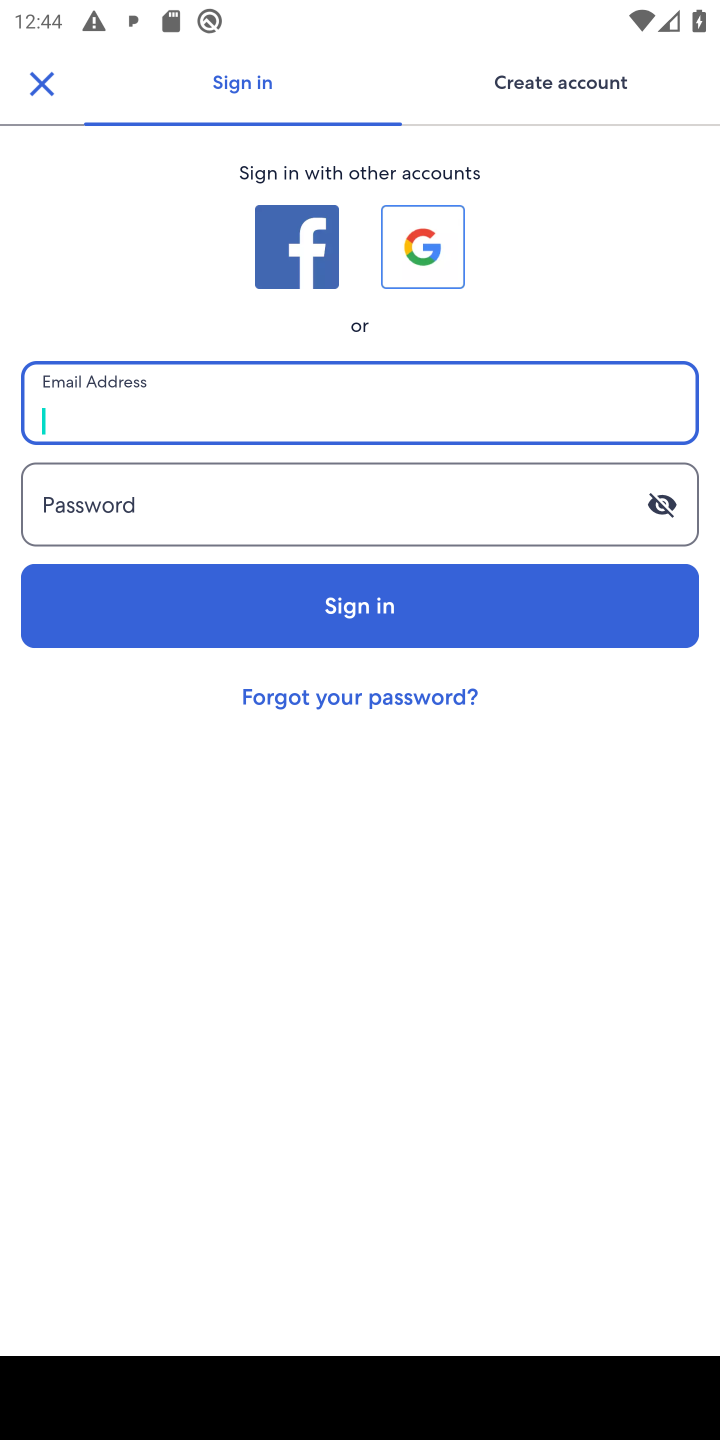
Step 28: type "crusader@outlook.com"
Your task to perform on an android device: open app "Expedia: Hotels, Flights & Car" (install if not already installed) and enter user name: "crusader@outlook.com" and password: "Toryize" Image 29: 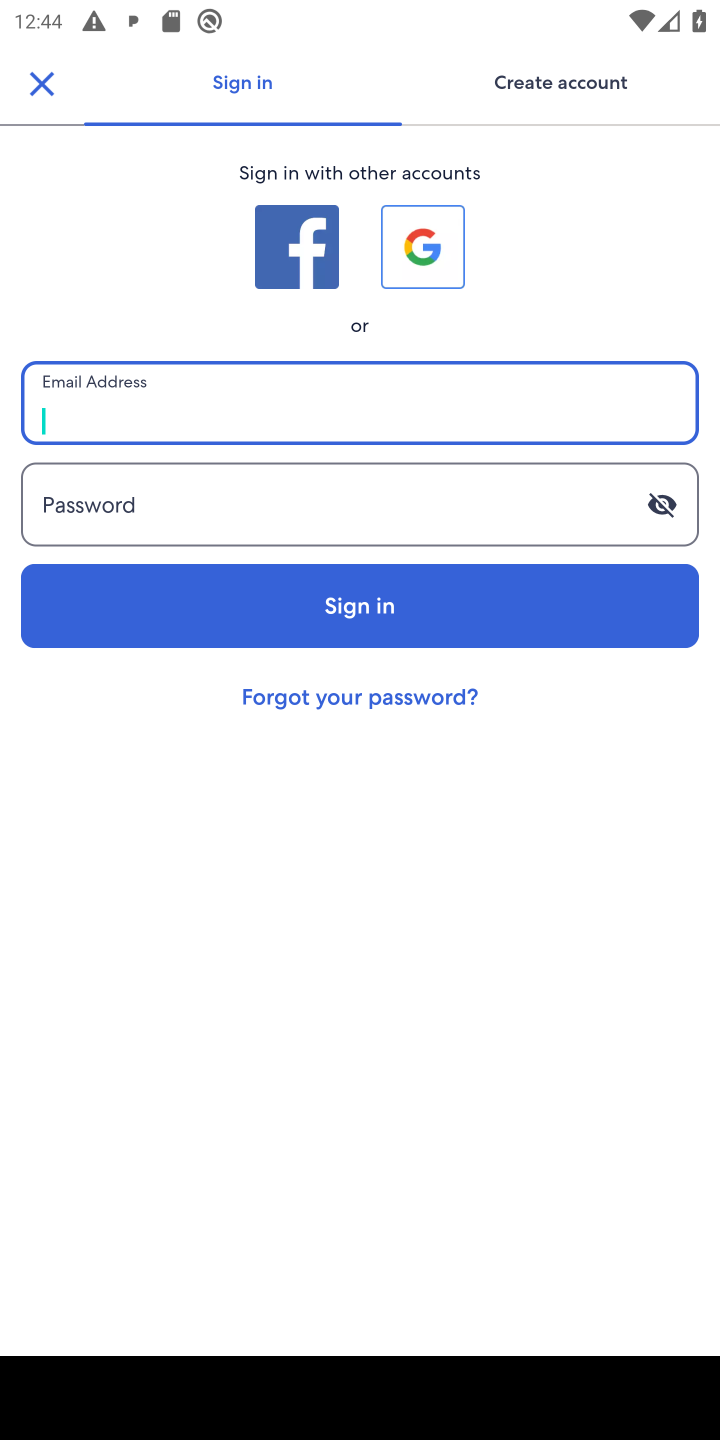
Step 29: click (175, 512)
Your task to perform on an android device: open app "Expedia: Hotels, Flights & Car" (install if not already installed) and enter user name: "crusader@outlook.com" and password: "Toryize" Image 30: 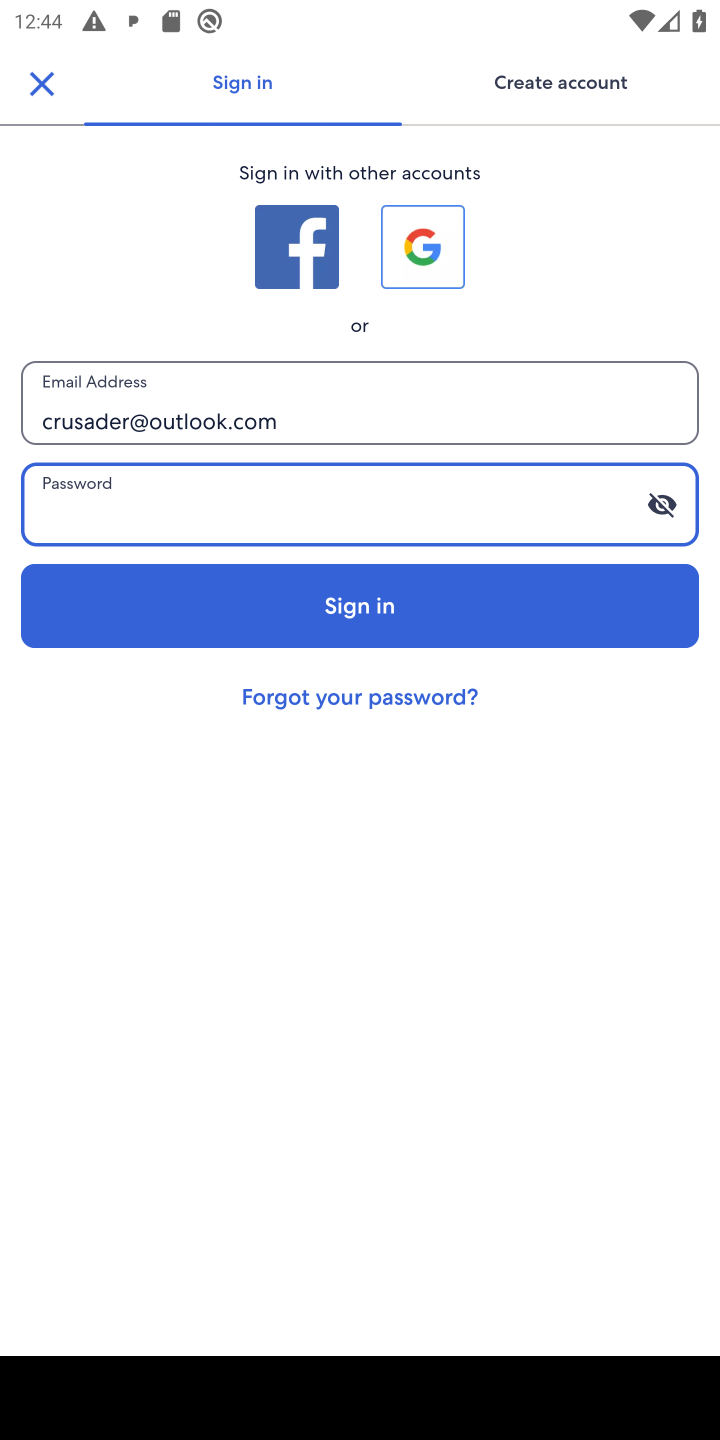
Step 30: click (134, 509)
Your task to perform on an android device: open app "Expedia: Hotels, Flights & Car" (install if not already installed) and enter user name: "crusader@outlook.com" and password: "Toryize" Image 31: 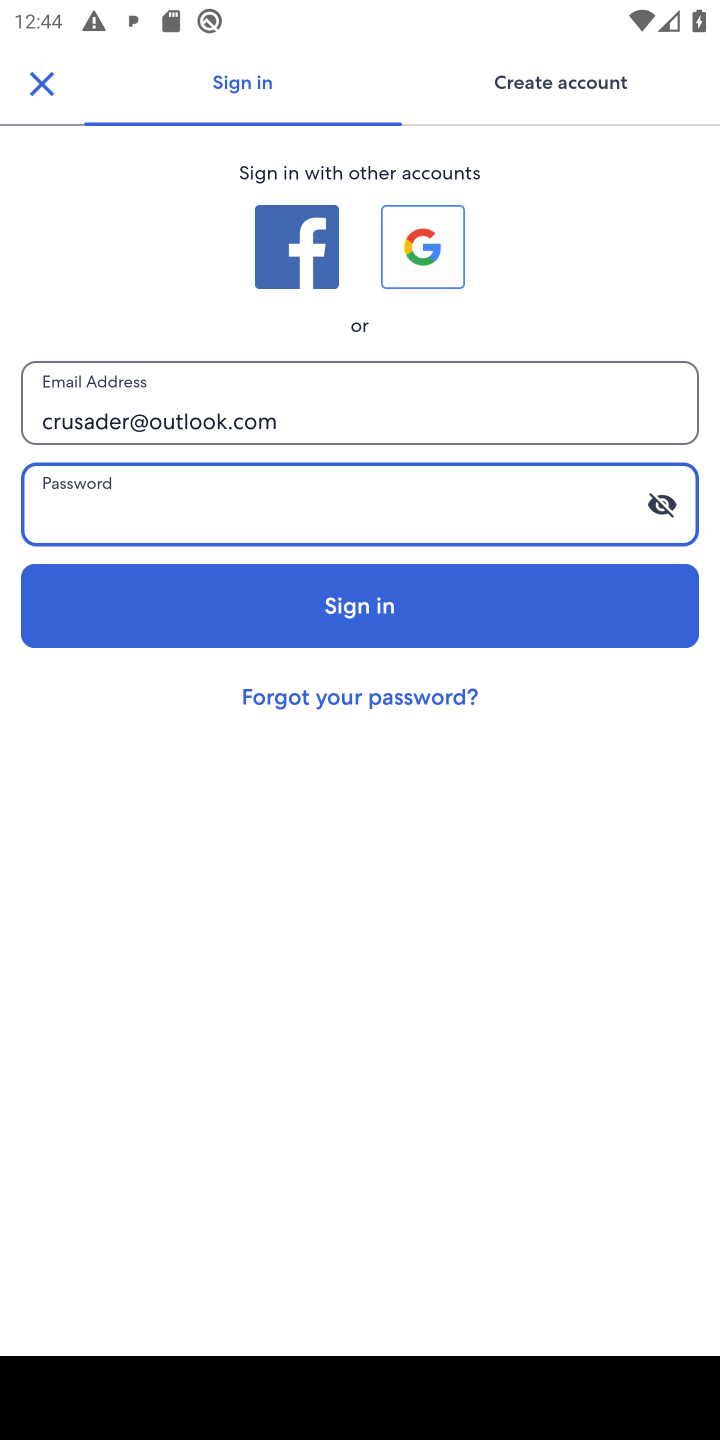
Step 31: type "Toryize"
Your task to perform on an android device: open app "Expedia: Hotels, Flights & Car" (install if not already installed) and enter user name: "crusader@outlook.com" and password: "Toryize" Image 32: 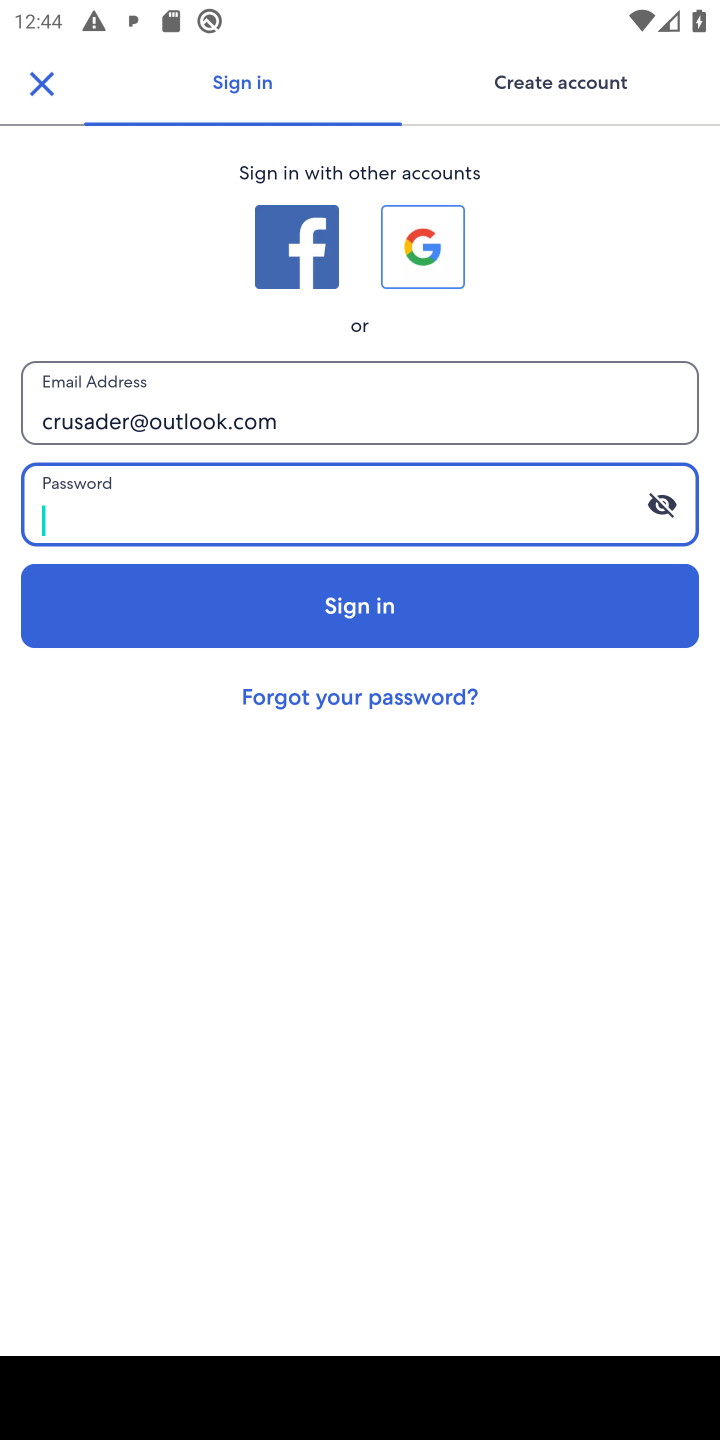
Step 32: click (526, 1088)
Your task to perform on an android device: open app "Expedia: Hotels, Flights & Car" (install if not already installed) and enter user name: "crusader@outlook.com" and password: "Toryize" Image 33: 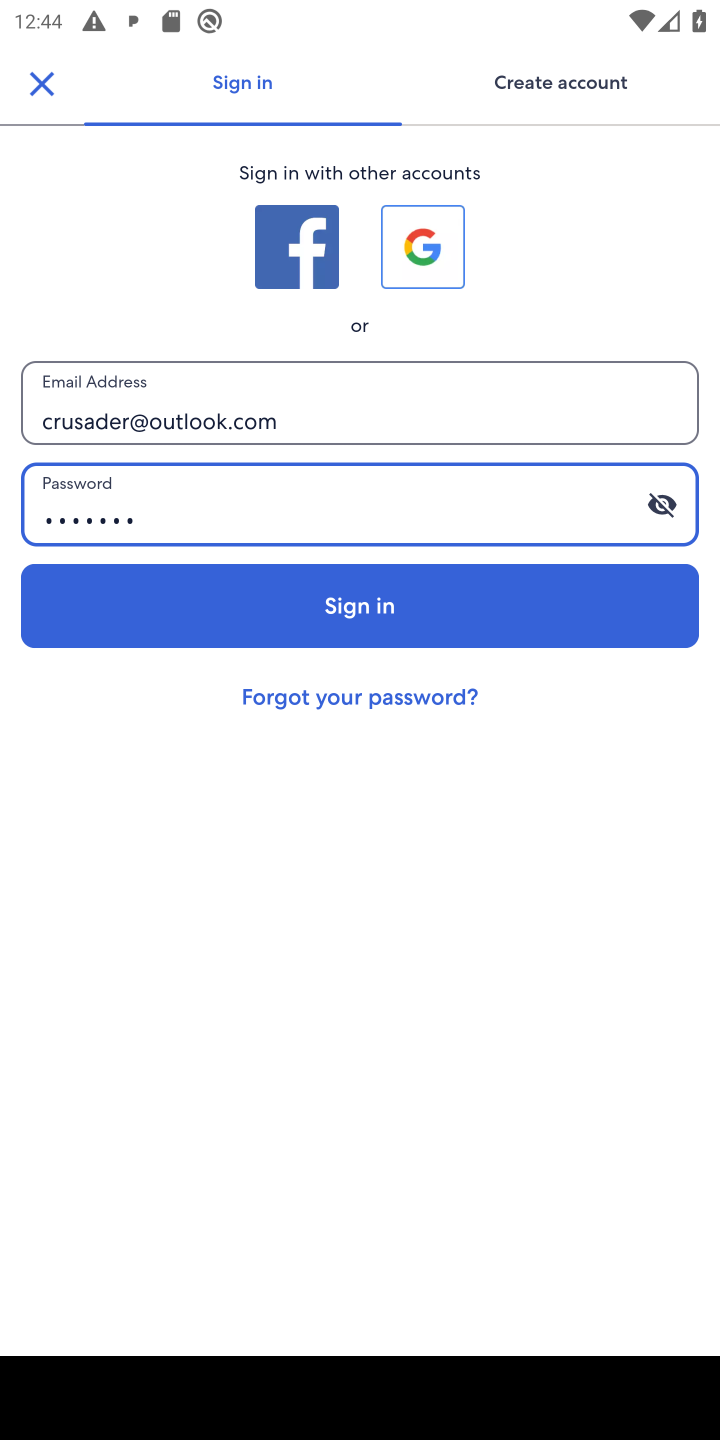
Step 33: task complete